Your task to perform on an android device: Clear the cart on bestbuy.com. Search for duracell triple a on bestbuy.com, select the first entry, add it to the cart, then select checkout. Image 0: 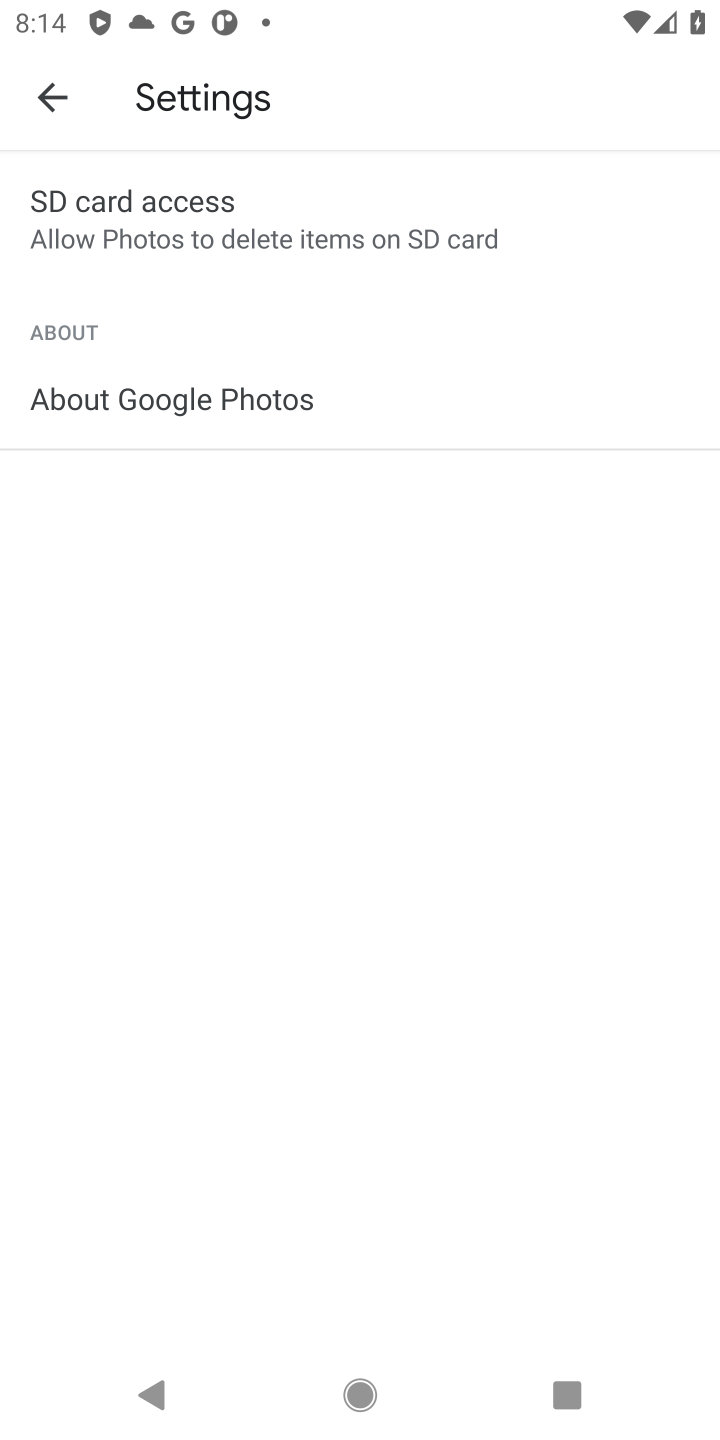
Step 0: press home button
Your task to perform on an android device: Clear the cart on bestbuy.com. Search for duracell triple a on bestbuy.com, select the first entry, add it to the cart, then select checkout. Image 1: 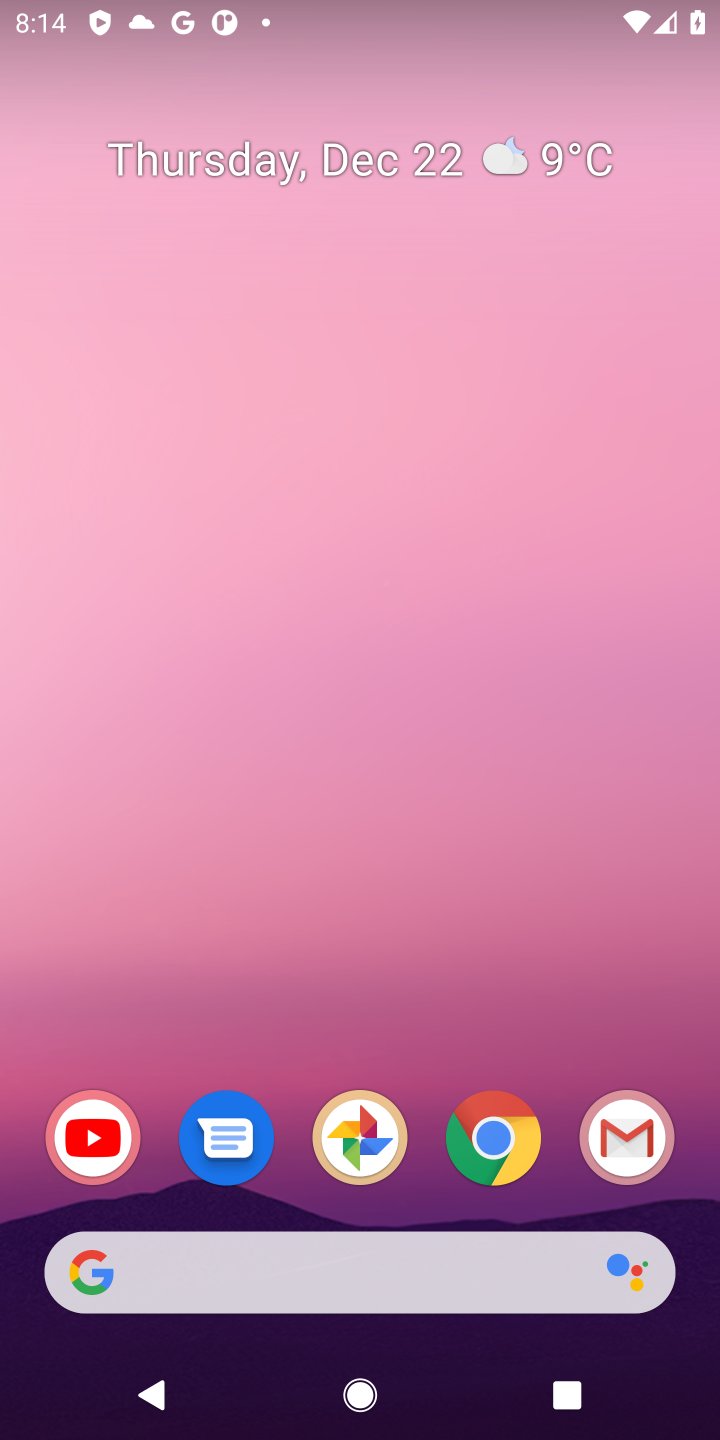
Step 1: click (505, 1143)
Your task to perform on an android device: Clear the cart on bestbuy.com. Search for duracell triple a on bestbuy.com, select the first entry, add it to the cart, then select checkout. Image 2: 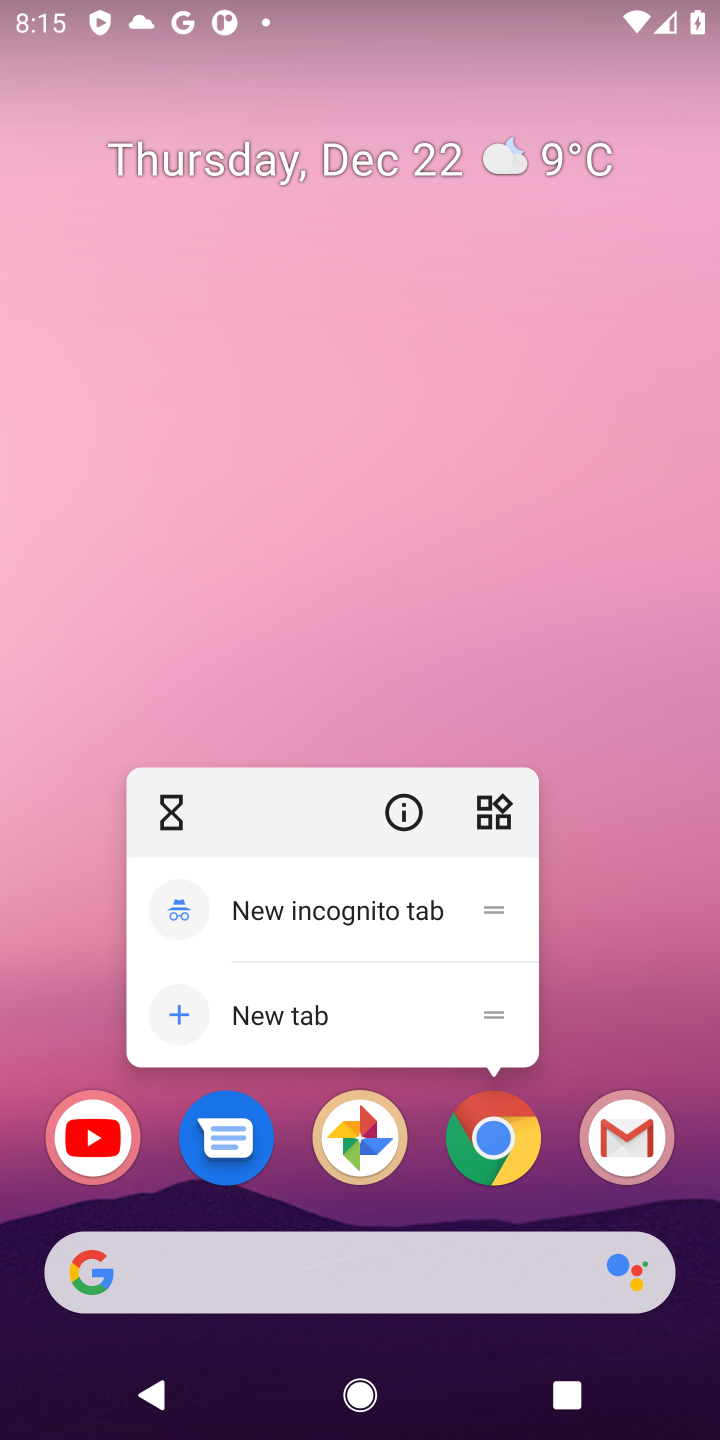
Step 2: click (505, 1143)
Your task to perform on an android device: Clear the cart on bestbuy.com. Search for duracell triple a on bestbuy.com, select the first entry, add it to the cart, then select checkout. Image 3: 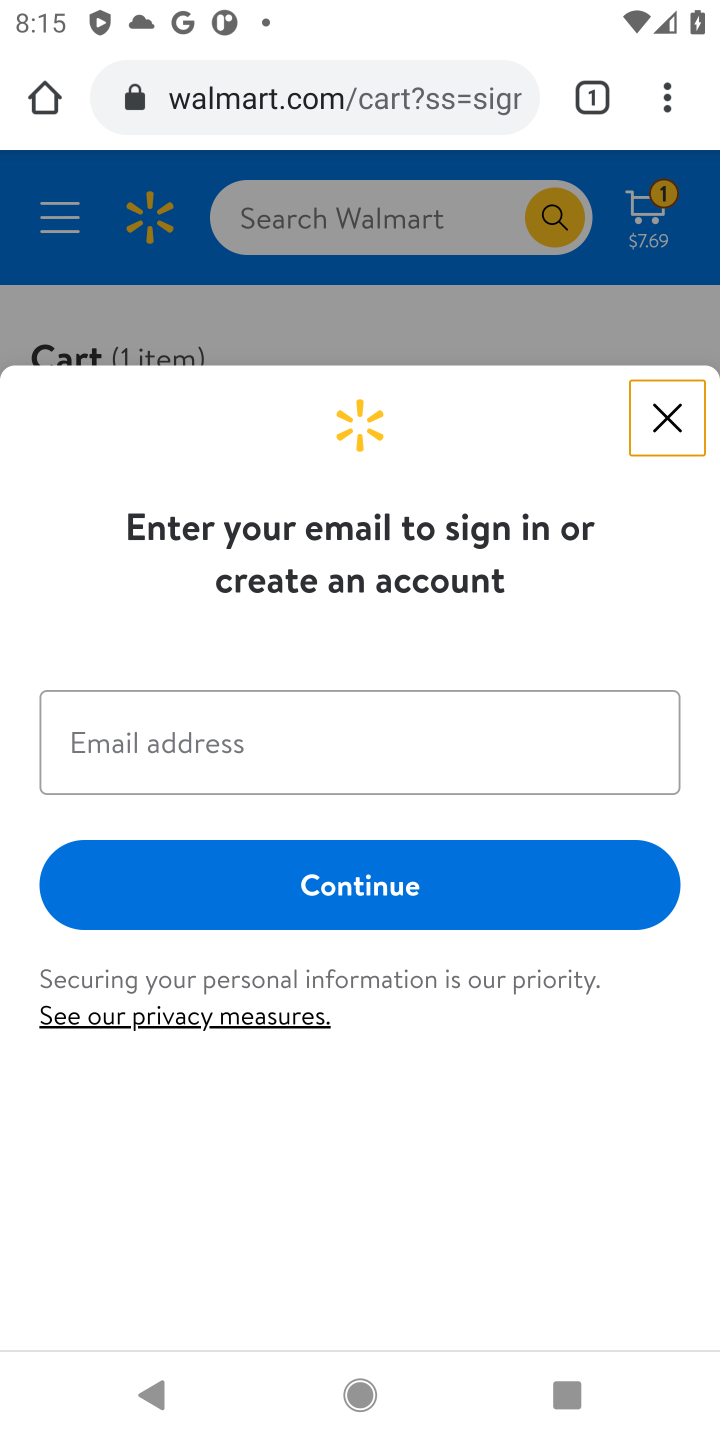
Step 3: click (670, 418)
Your task to perform on an android device: Clear the cart on bestbuy.com. Search for duracell triple a on bestbuy.com, select the first entry, add it to the cart, then select checkout. Image 4: 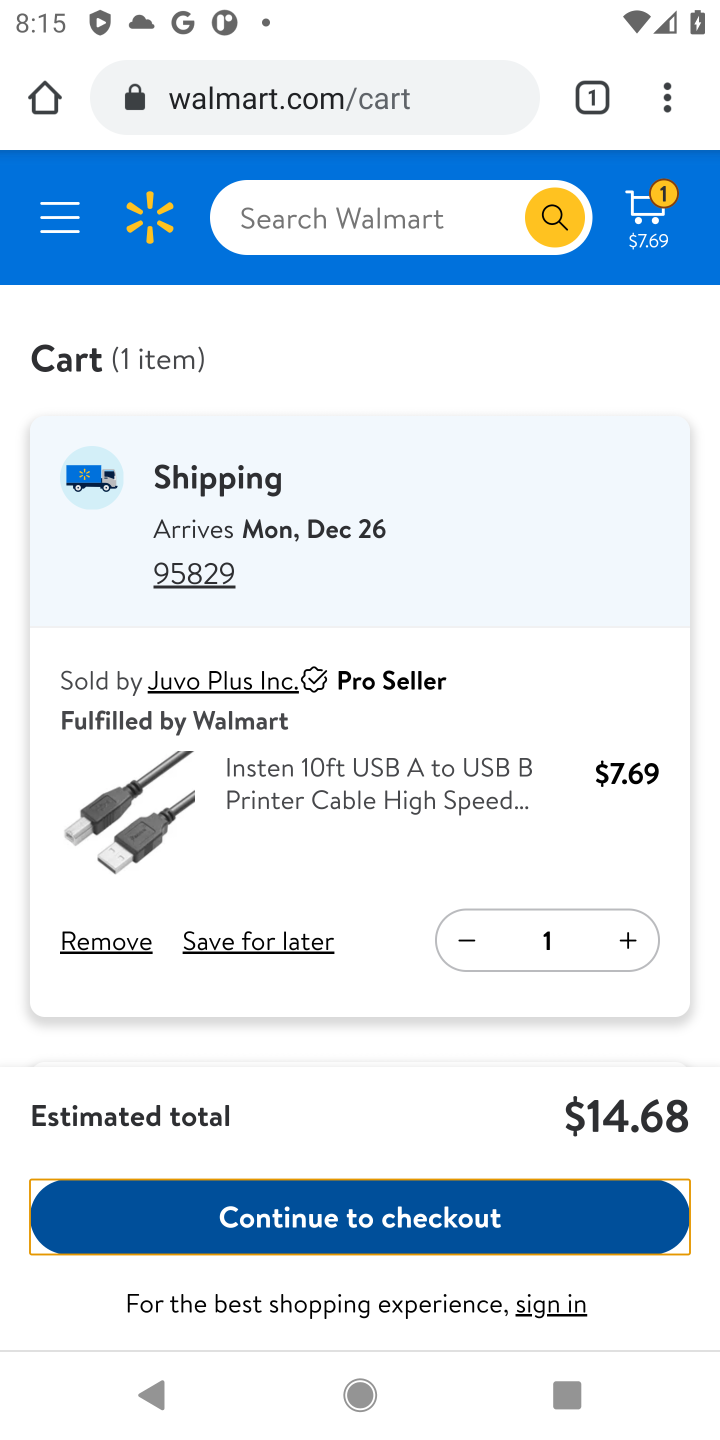
Step 4: click (459, 101)
Your task to perform on an android device: Clear the cart on bestbuy.com. Search for duracell triple a on bestbuy.com, select the first entry, add it to the cart, then select checkout. Image 5: 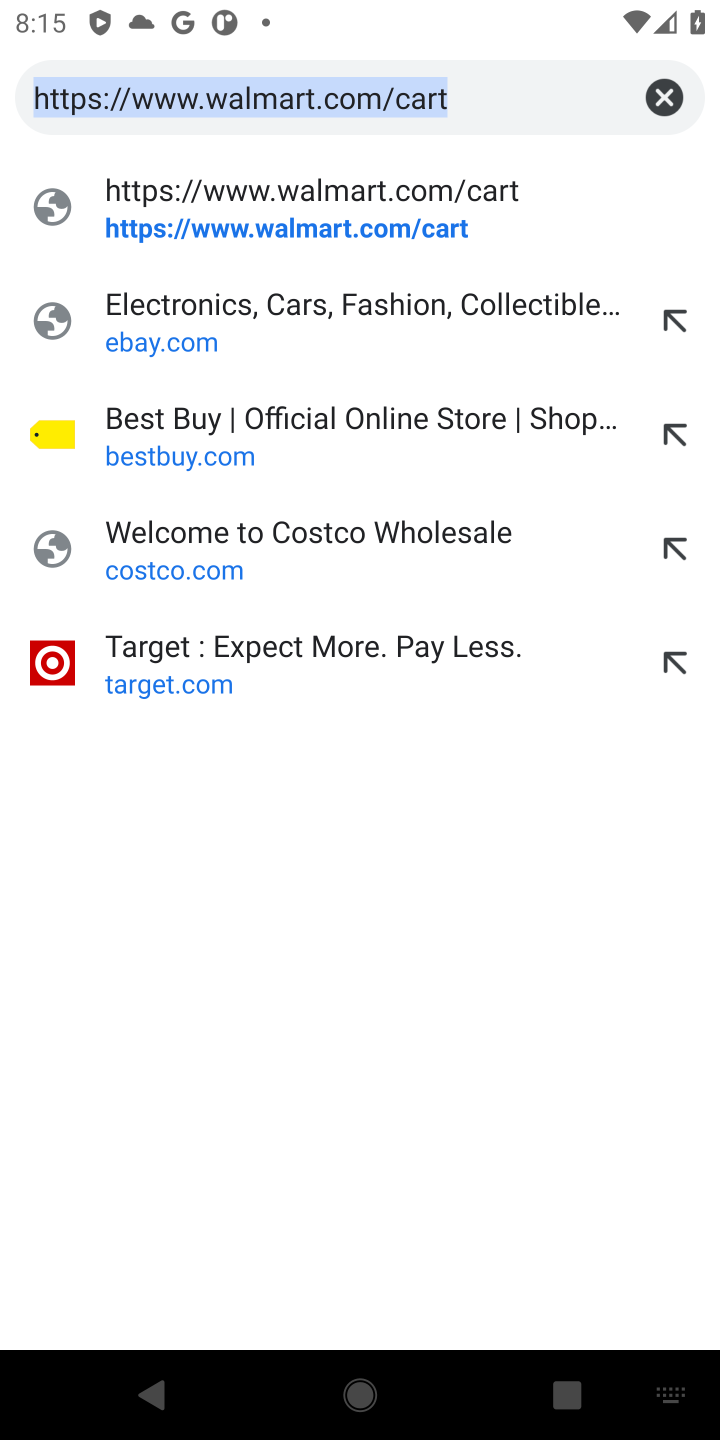
Step 5: click (662, 99)
Your task to perform on an android device: Clear the cart on bestbuy.com. Search for duracell triple a on bestbuy.com, select the first entry, add it to the cart, then select checkout. Image 6: 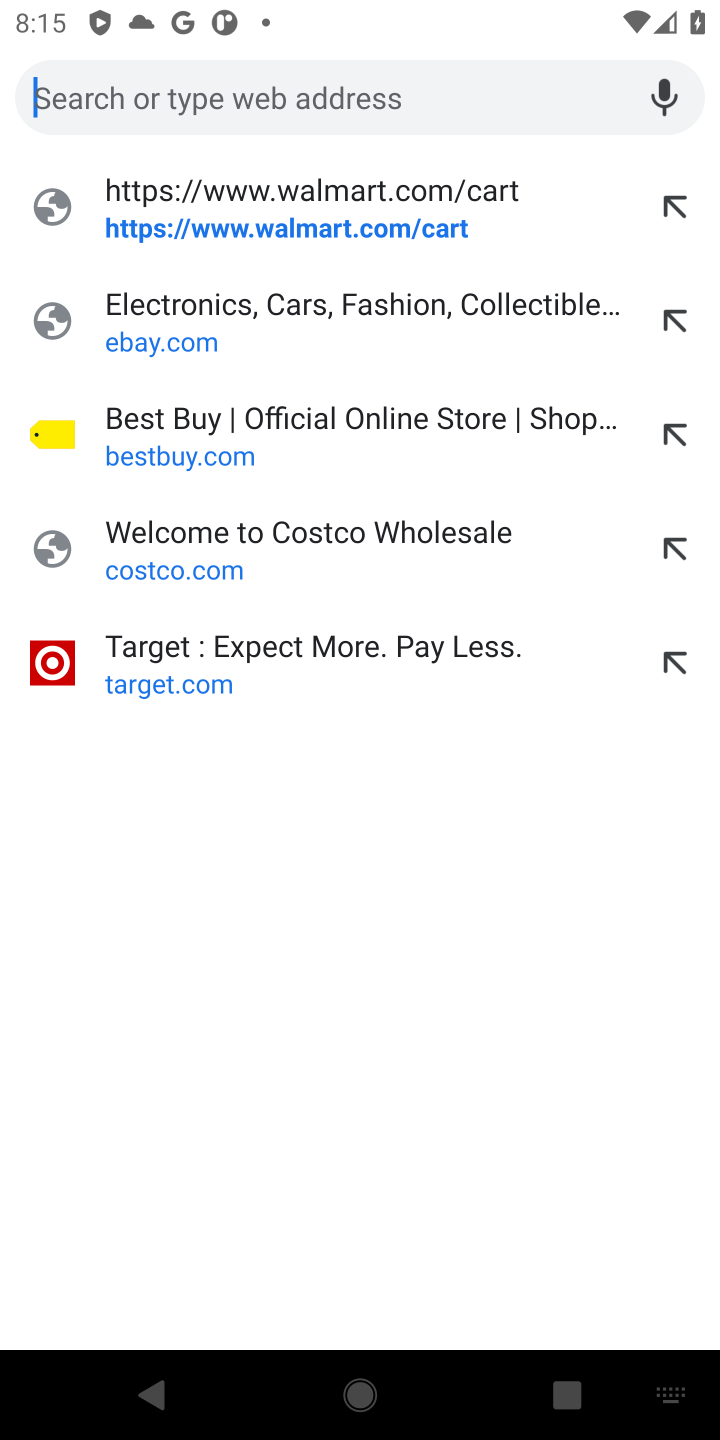
Step 6: click (315, 417)
Your task to perform on an android device: Clear the cart on bestbuy.com. Search for duracell triple a on bestbuy.com, select the first entry, add it to the cart, then select checkout. Image 7: 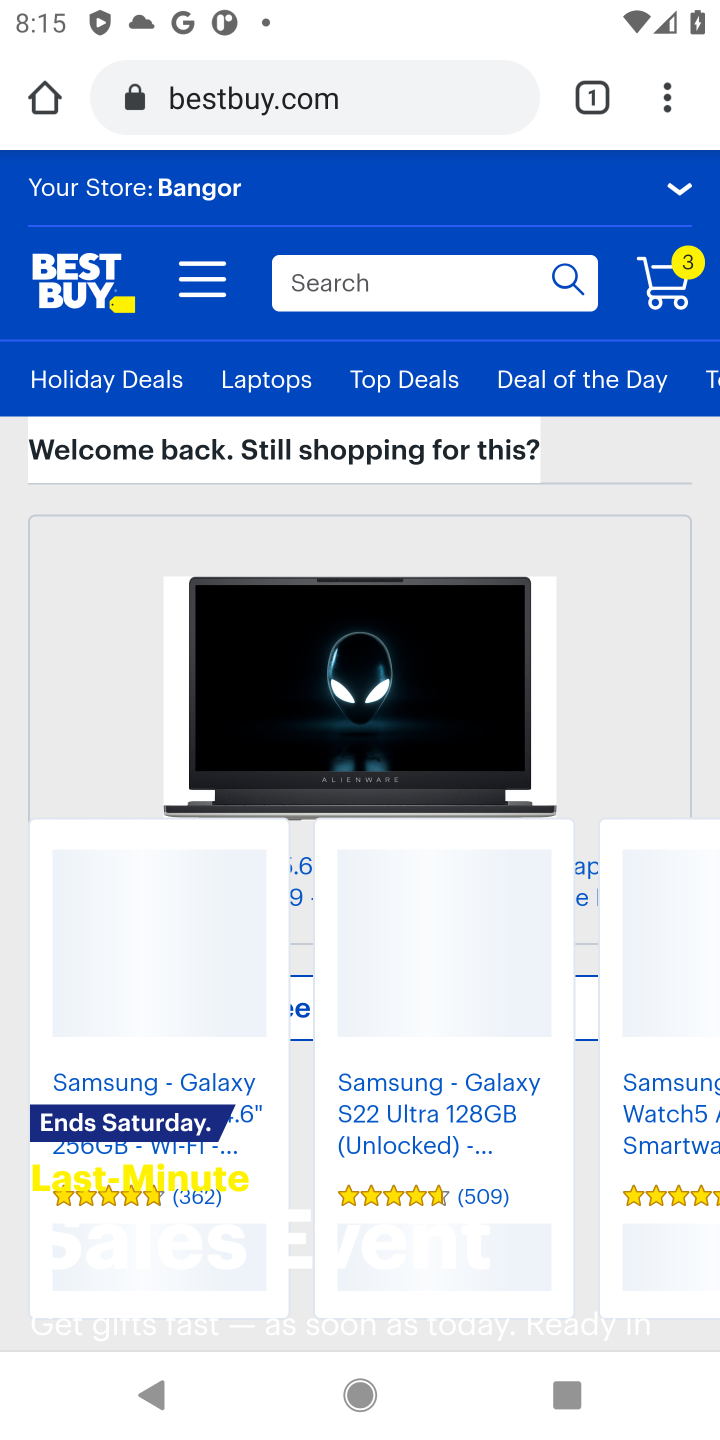
Step 7: click (670, 290)
Your task to perform on an android device: Clear the cart on bestbuy.com. Search for duracell triple a on bestbuy.com, select the first entry, add it to the cart, then select checkout. Image 8: 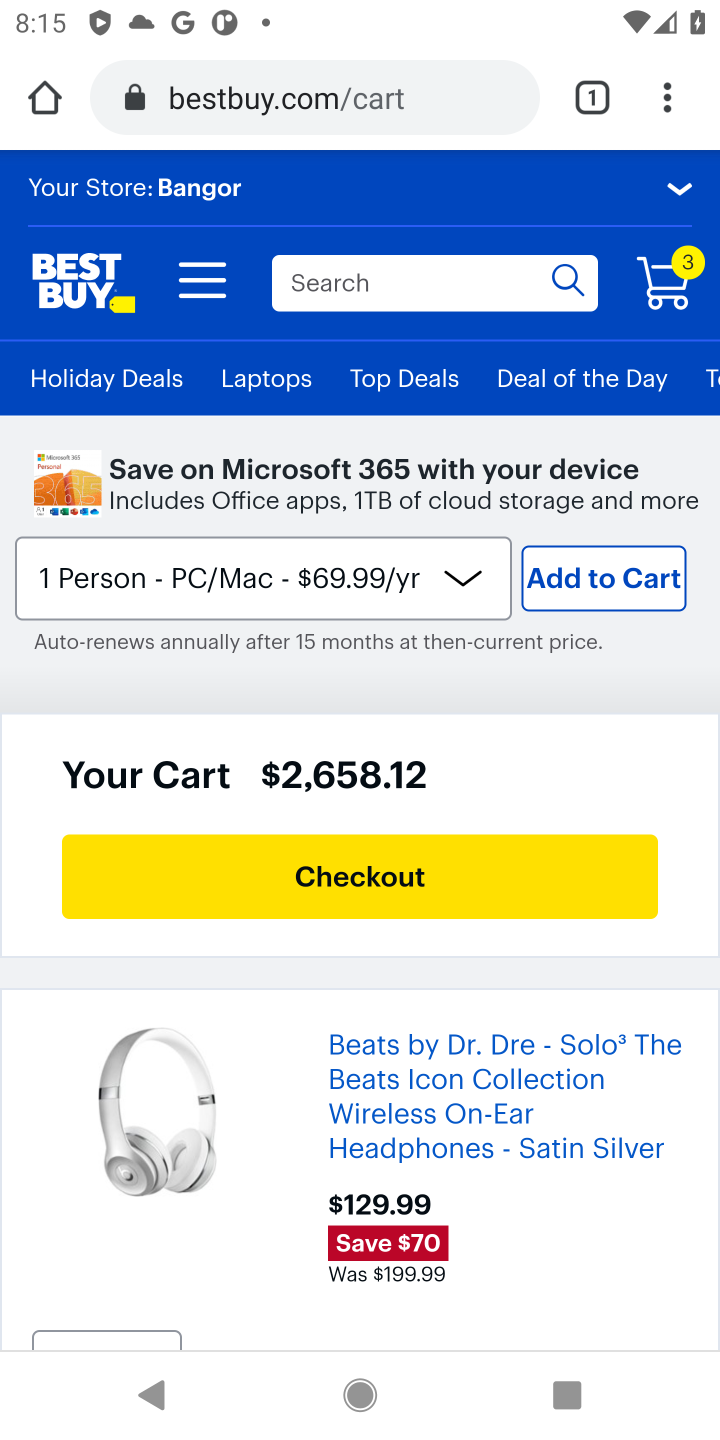
Step 8: drag from (541, 1136) to (450, 505)
Your task to perform on an android device: Clear the cart on bestbuy.com. Search for duracell triple a on bestbuy.com, select the first entry, add it to the cart, then select checkout. Image 9: 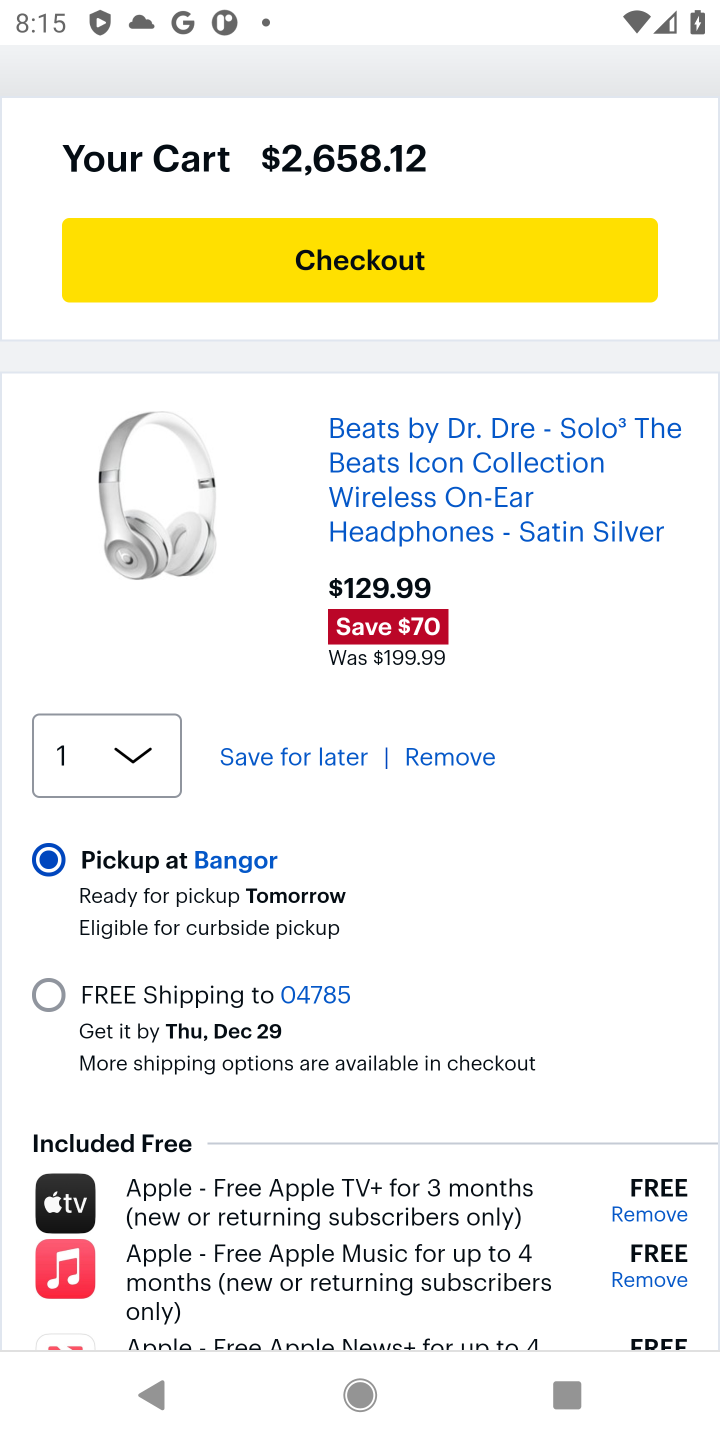
Step 9: click (449, 757)
Your task to perform on an android device: Clear the cart on bestbuy.com. Search for duracell triple a on bestbuy.com, select the first entry, add it to the cart, then select checkout. Image 10: 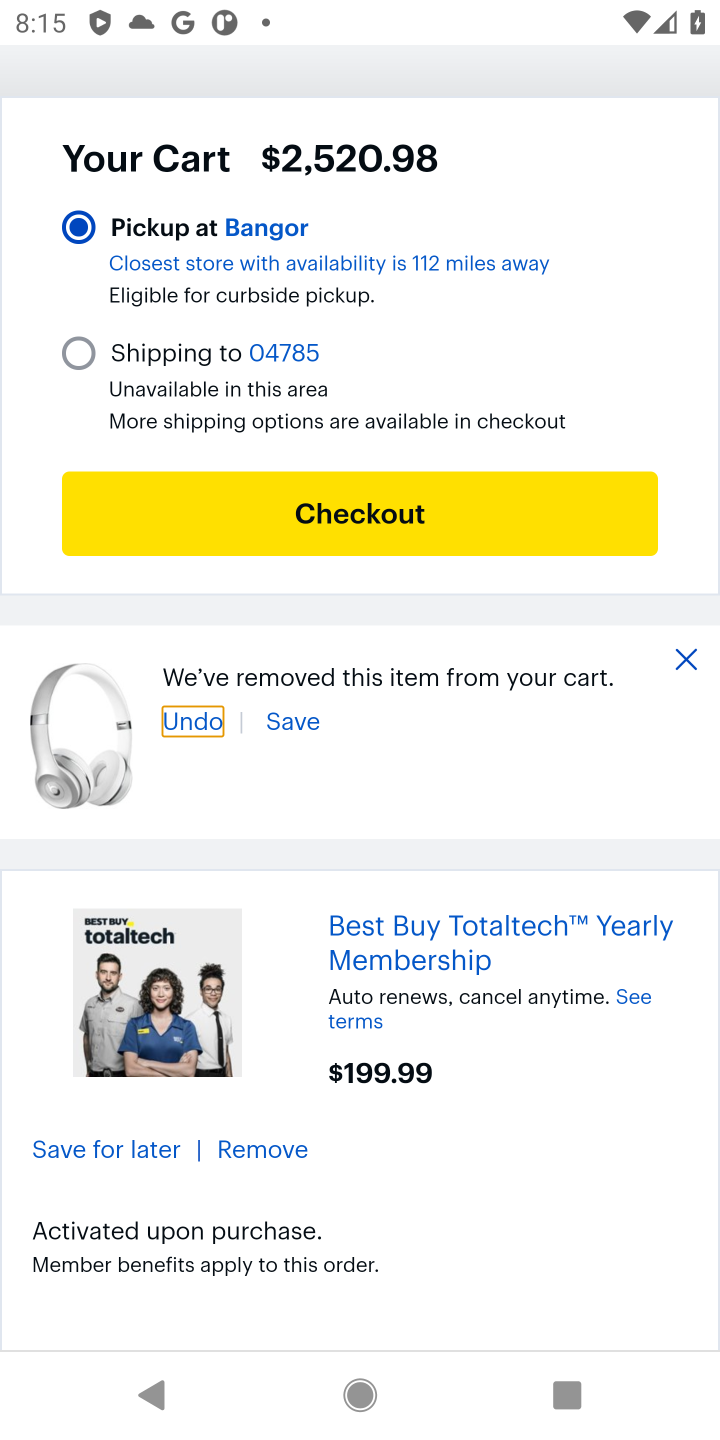
Step 10: click (692, 658)
Your task to perform on an android device: Clear the cart on bestbuy.com. Search for duracell triple a on bestbuy.com, select the first entry, add it to the cart, then select checkout. Image 11: 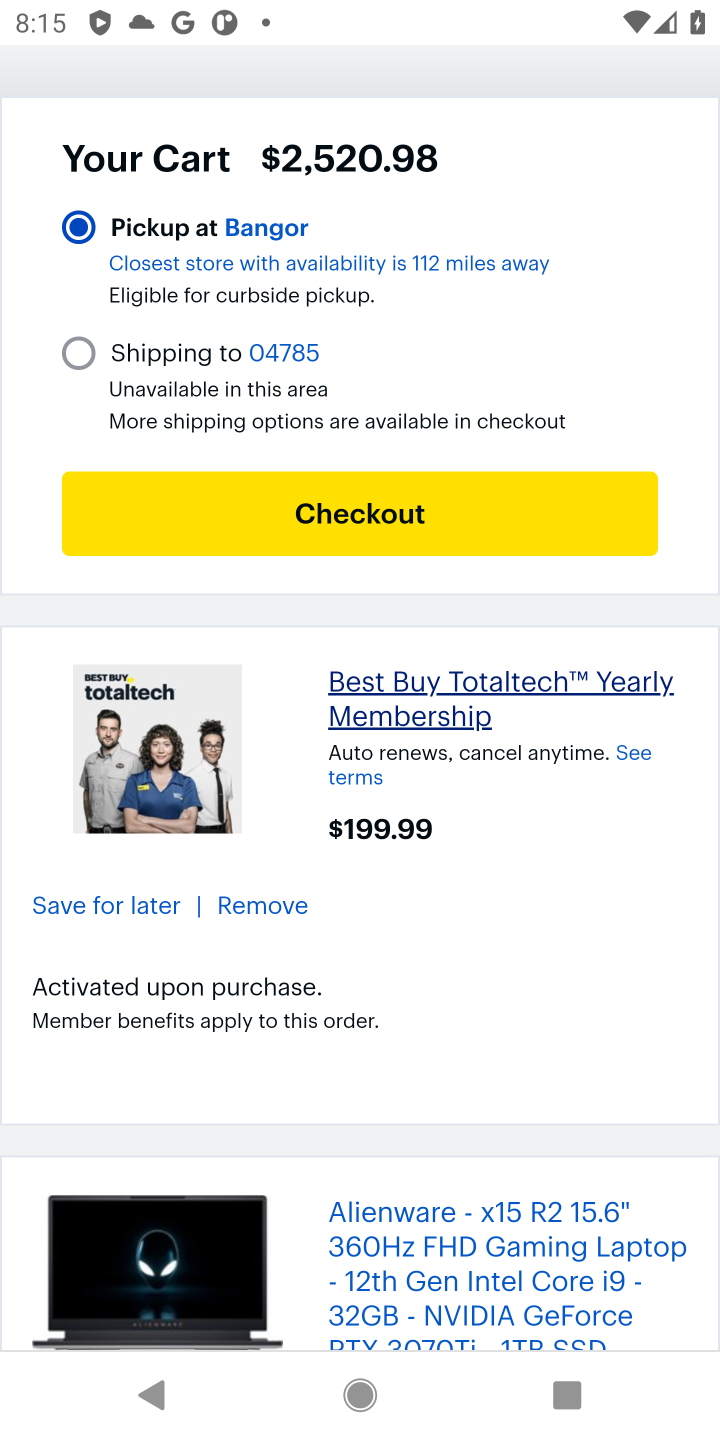
Step 11: click (280, 908)
Your task to perform on an android device: Clear the cart on bestbuy.com. Search for duracell triple a on bestbuy.com, select the first entry, add it to the cart, then select checkout. Image 12: 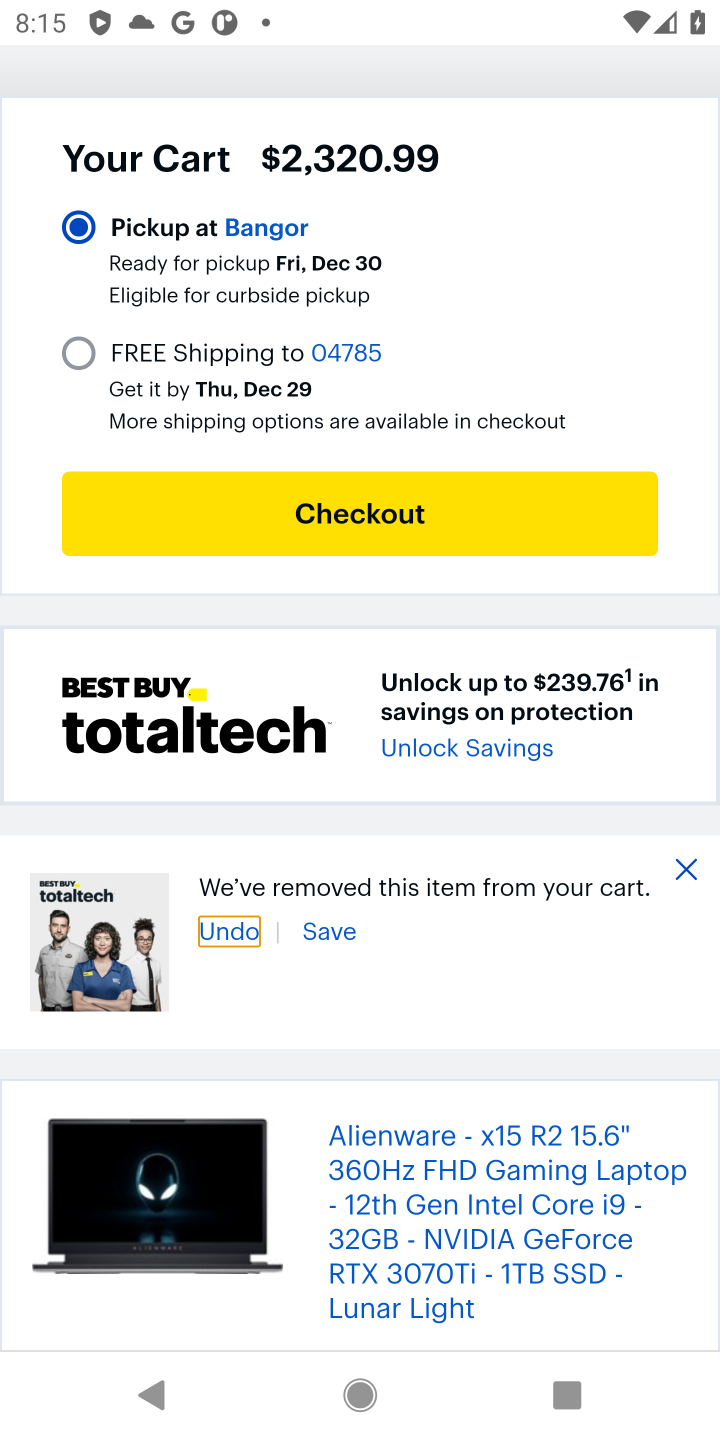
Step 12: click (679, 867)
Your task to perform on an android device: Clear the cart on bestbuy.com. Search for duracell triple a on bestbuy.com, select the first entry, add it to the cart, then select checkout. Image 13: 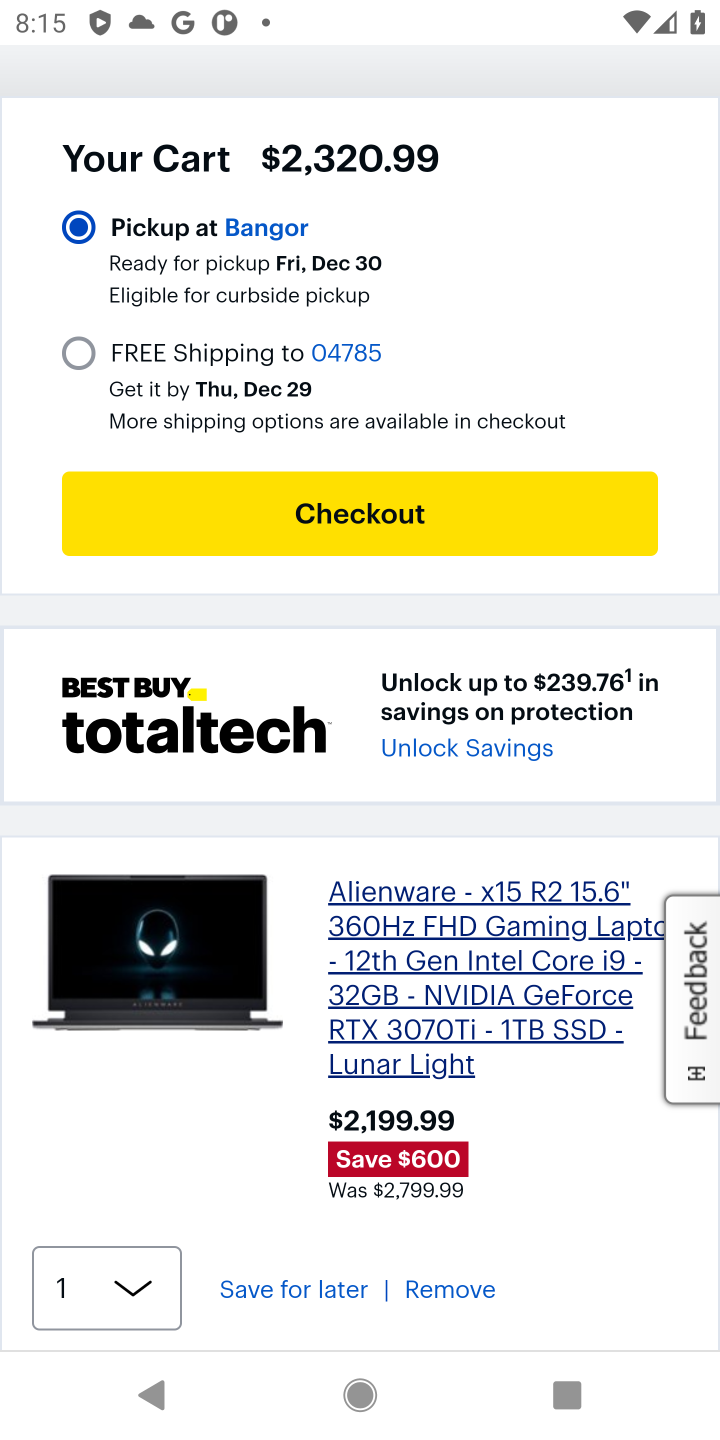
Step 13: drag from (572, 1187) to (488, 516)
Your task to perform on an android device: Clear the cart on bestbuy.com. Search for duracell triple a on bestbuy.com, select the first entry, add it to the cart, then select checkout. Image 14: 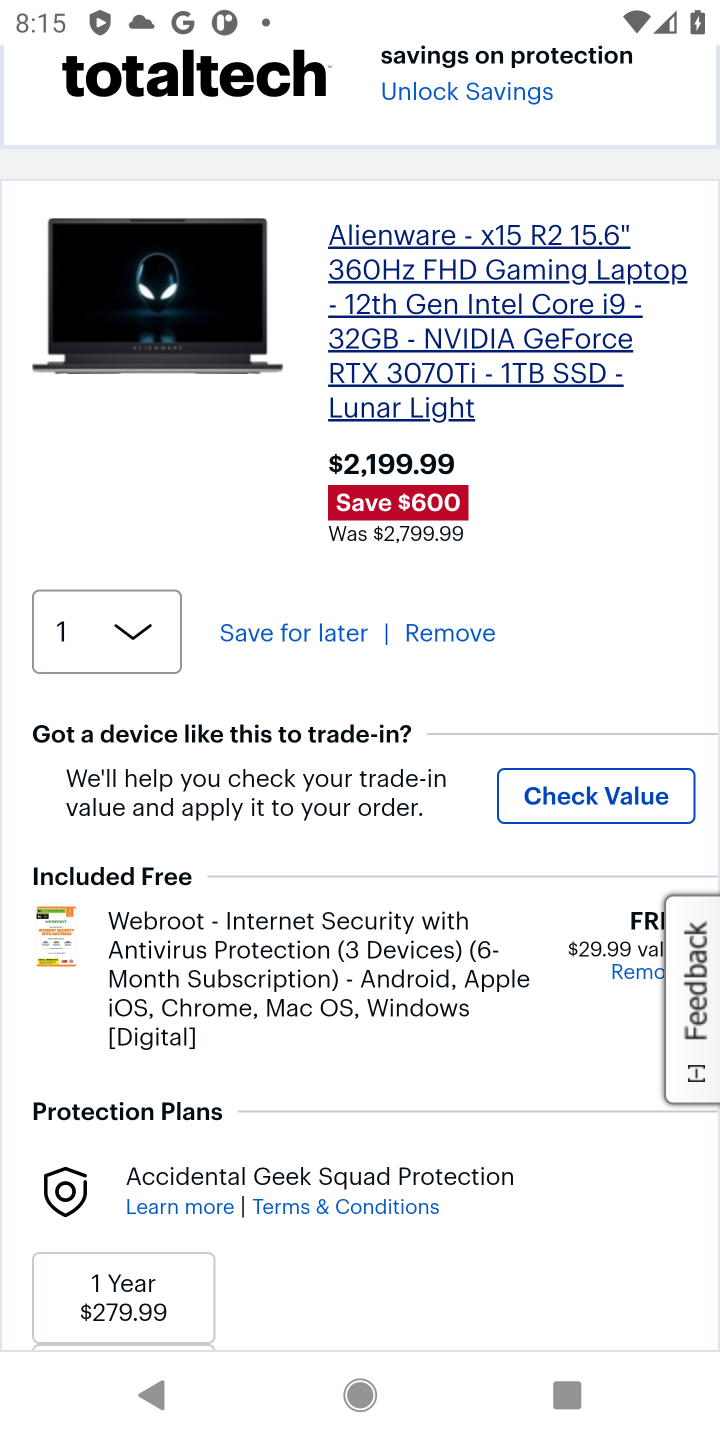
Step 14: click (454, 634)
Your task to perform on an android device: Clear the cart on bestbuy.com. Search for duracell triple a on bestbuy.com, select the first entry, add it to the cart, then select checkout. Image 15: 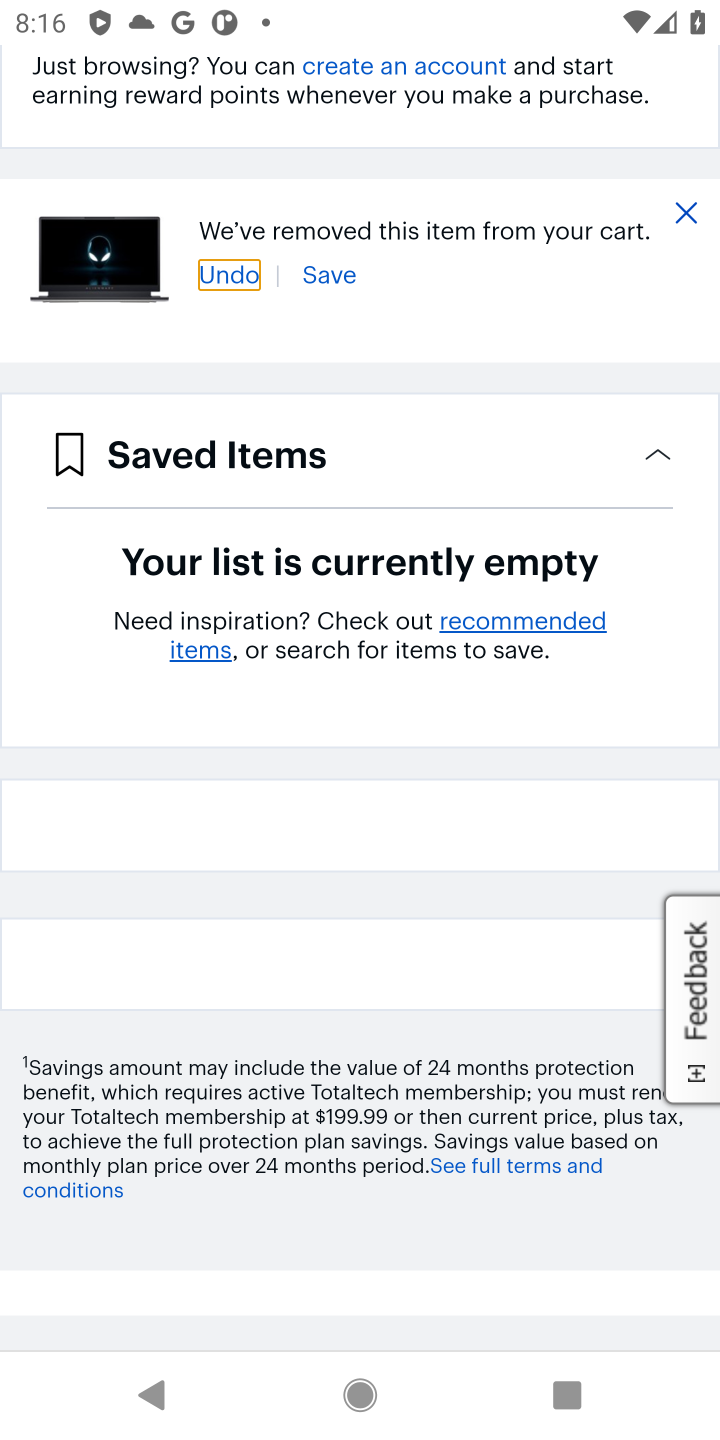
Step 15: click (695, 223)
Your task to perform on an android device: Clear the cart on bestbuy.com. Search for duracell triple a on bestbuy.com, select the first entry, add it to the cart, then select checkout. Image 16: 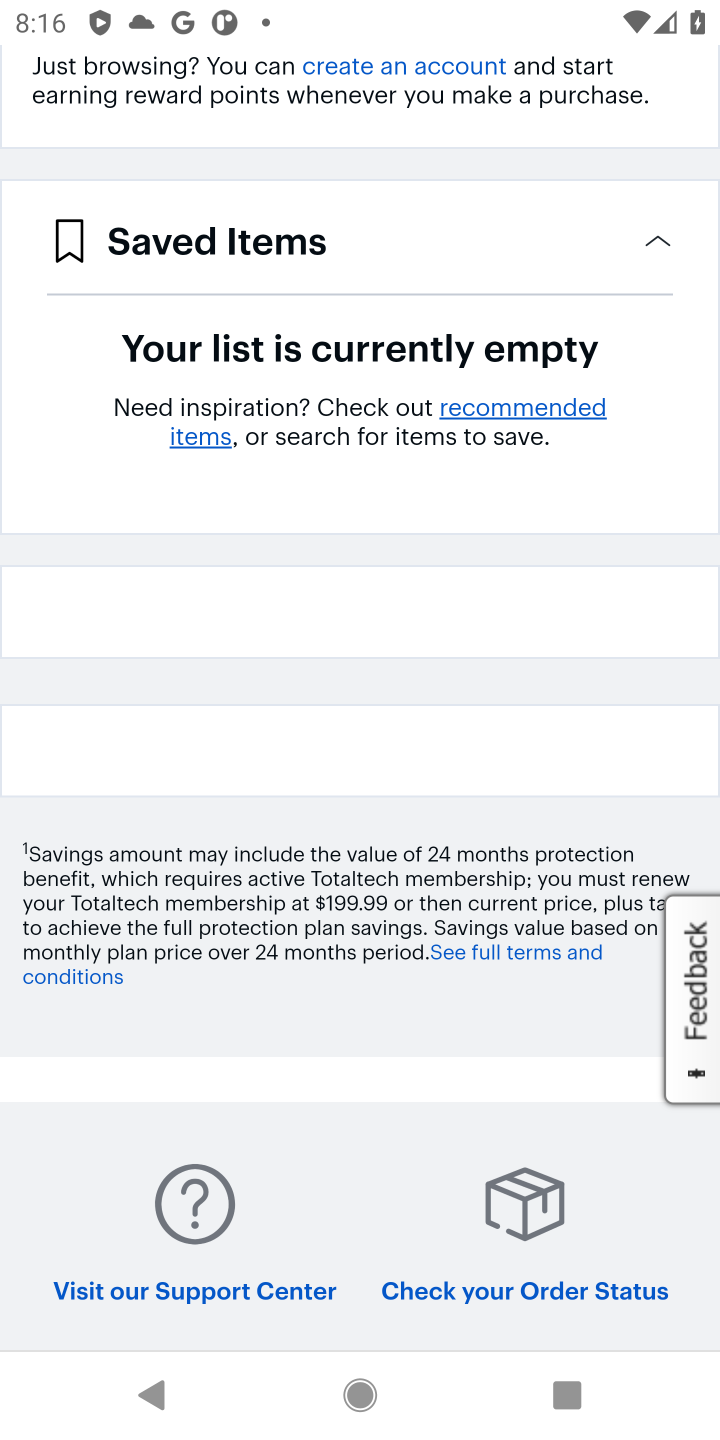
Step 16: drag from (620, 523) to (665, 1218)
Your task to perform on an android device: Clear the cart on bestbuy.com. Search for duracell triple a on bestbuy.com, select the first entry, add it to the cart, then select checkout. Image 17: 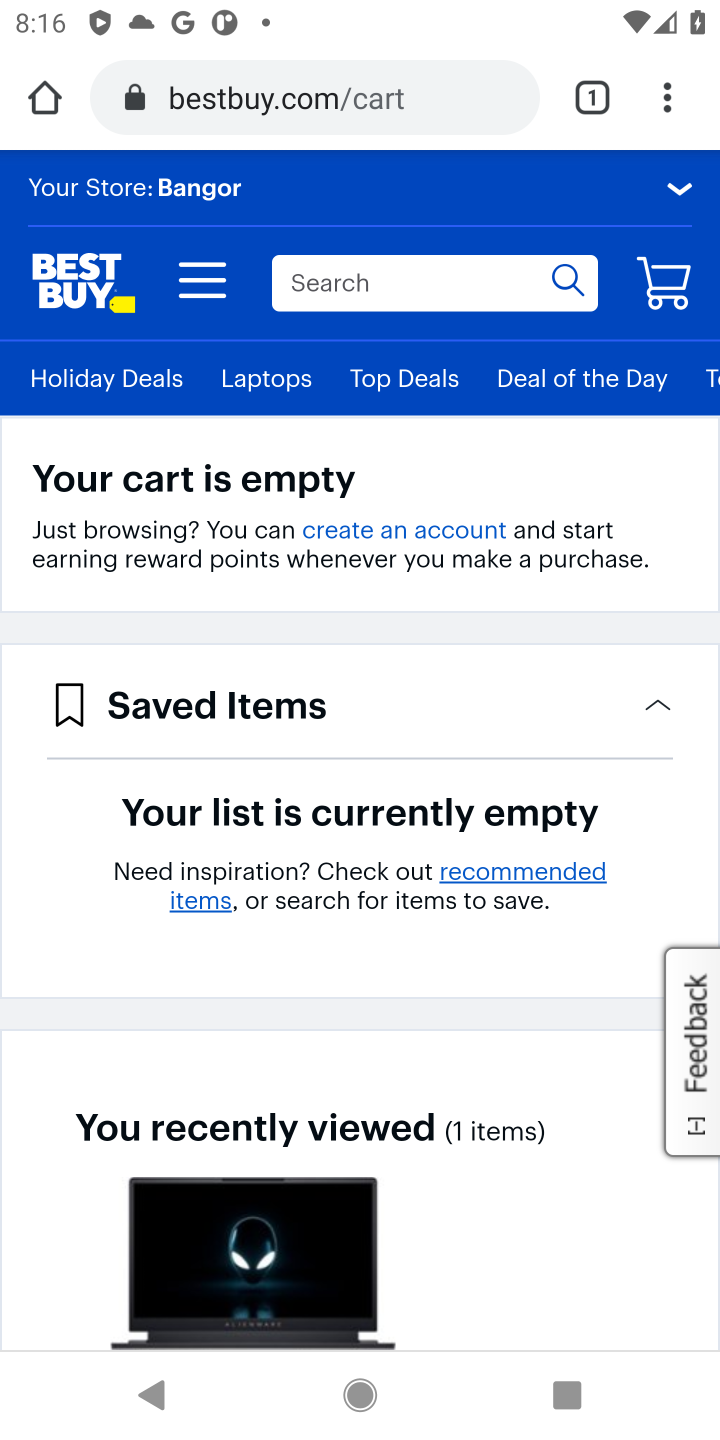
Step 17: click (661, 287)
Your task to perform on an android device: Clear the cart on bestbuy.com. Search for duracell triple a on bestbuy.com, select the first entry, add it to the cart, then select checkout. Image 18: 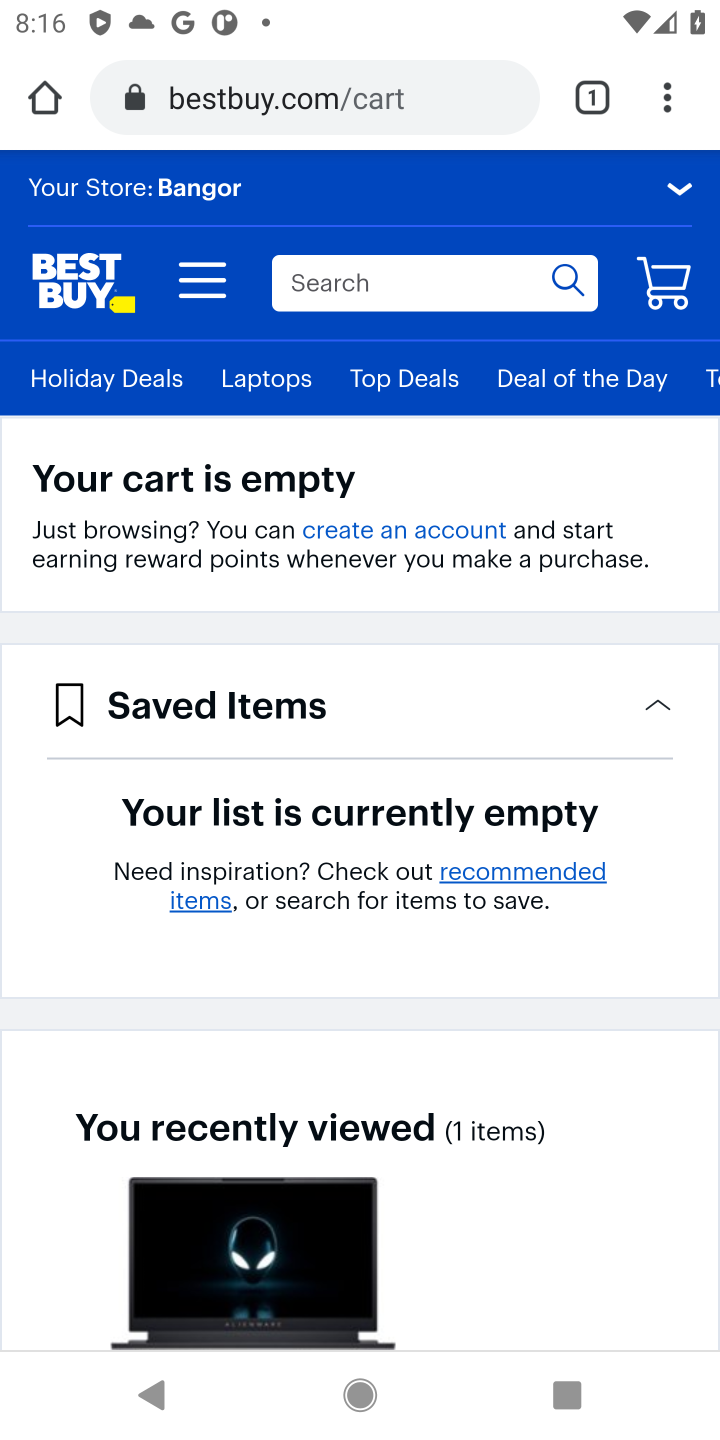
Step 18: click (450, 260)
Your task to perform on an android device: Clear the cart on bestbuy.com. Search for duracell triple a on bestbuy.com, select the first entry, add it to the cart, then select checkout. Image 19: 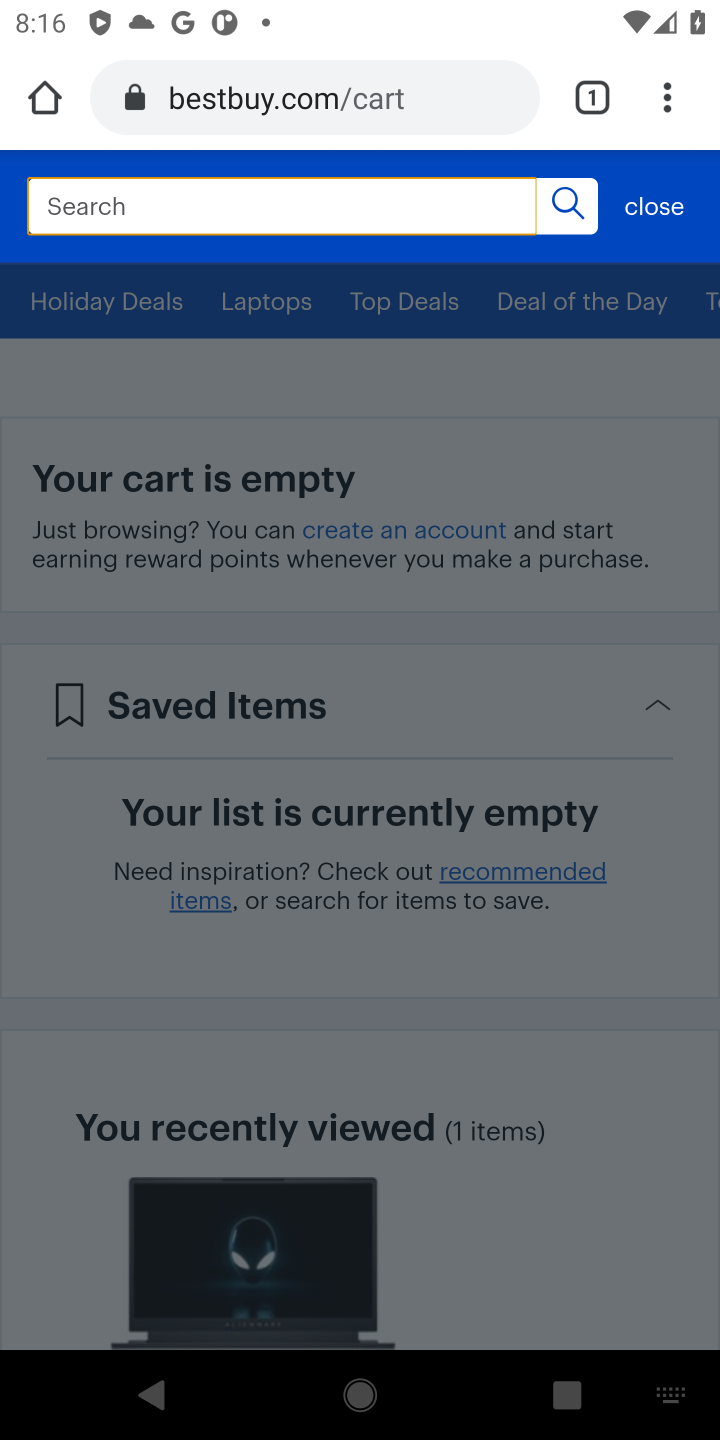
Step 19: press enter
Your task to perform on an android device: Clear the cart on bestbuy.com. Search for duracell triple a on bestbuy.com, select the first entry, add it to the cart, then select checkout. Image 20: 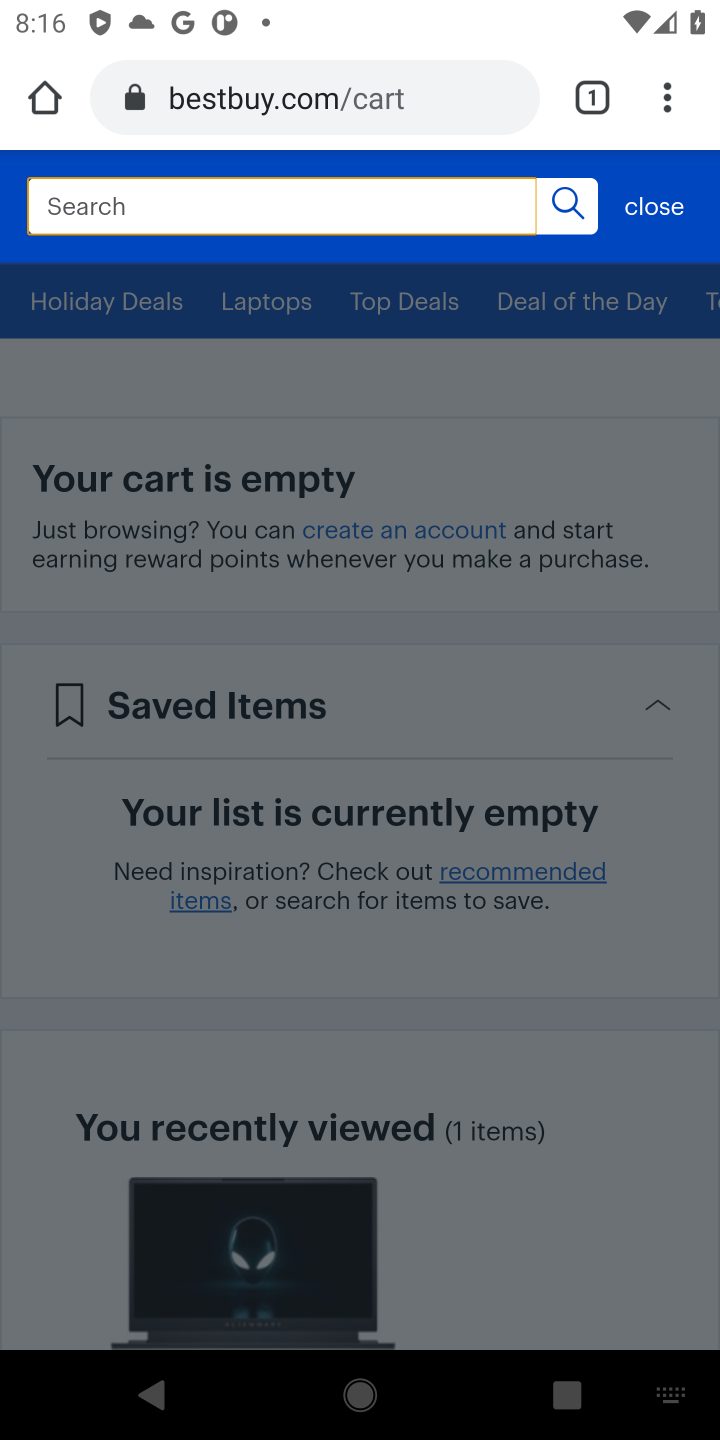
Step 20: type "duracell triple a"
Your task to perform on an android device: Clear the cart on bestbuy.com. Search for duracell triple a on bestbuy.com, select the first entry, add it to the cart, then select checkout. Image 21: 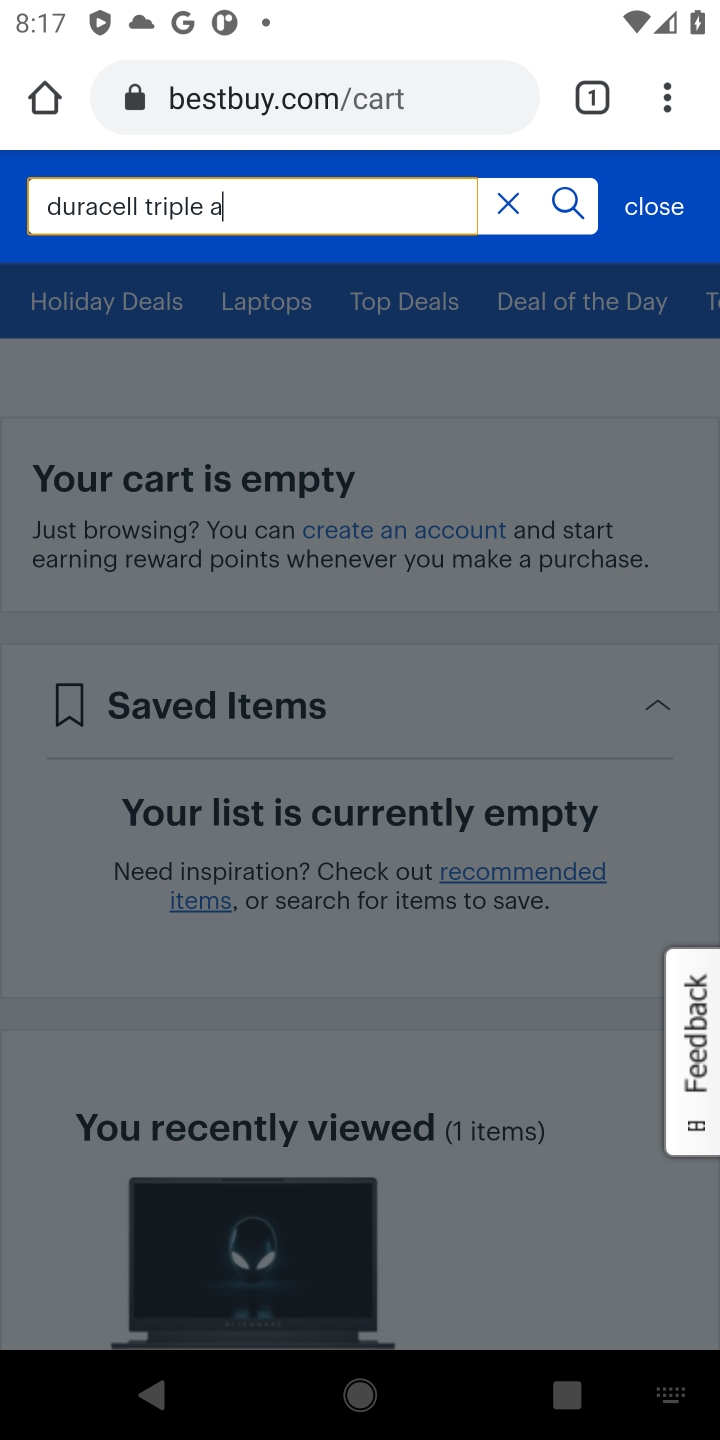
Step 21: click (576, 213)
Your task to perform on an android device: Clear the cart on bestbuy.com. Search for duracell triple a on bestbuy.com, select the first entry, add it to the cart, then select checkout. Image 22: 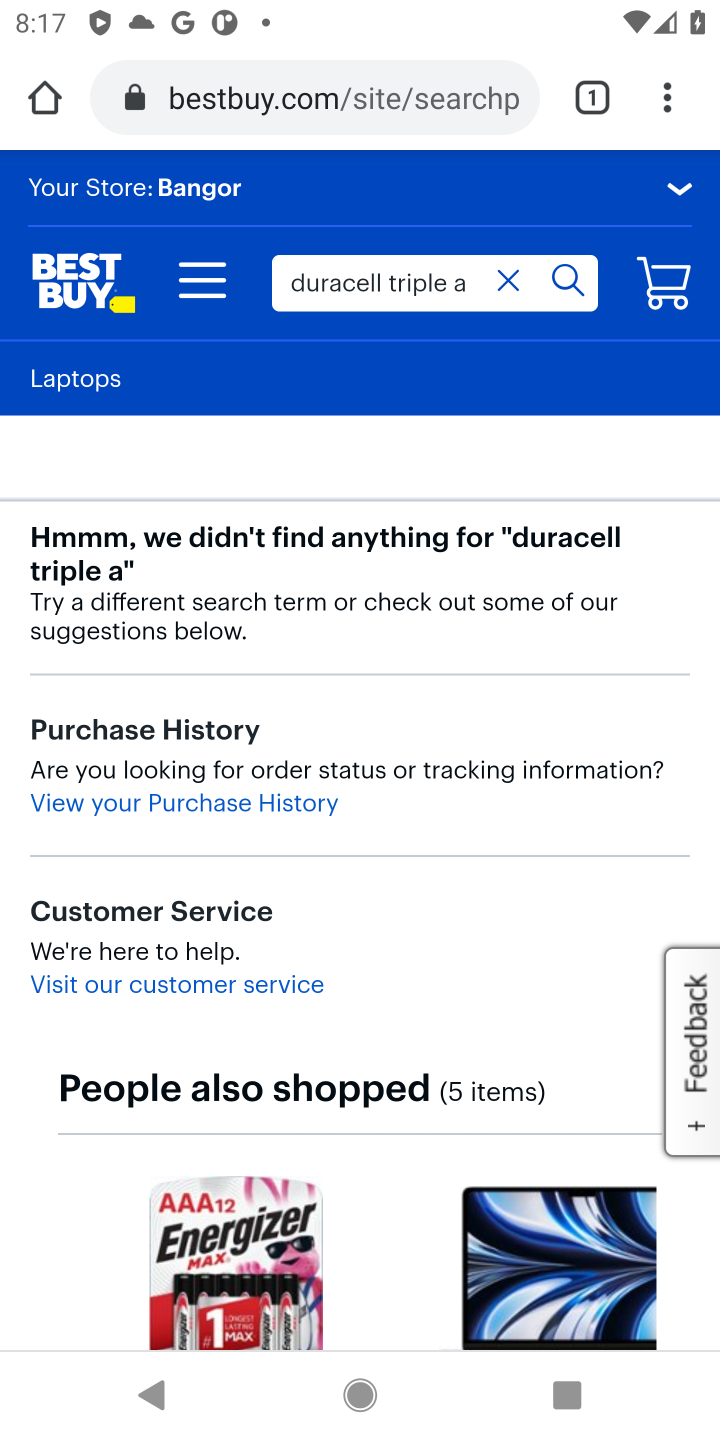
Step 22: drag from (468, 863) to (416, 423)
Your task to perform on an android device: Clear the cart on bestbuy.com. Search for duracell triple a on bestbuy.com, select the first entry, add it to the cart, then select checkout. Image 23: 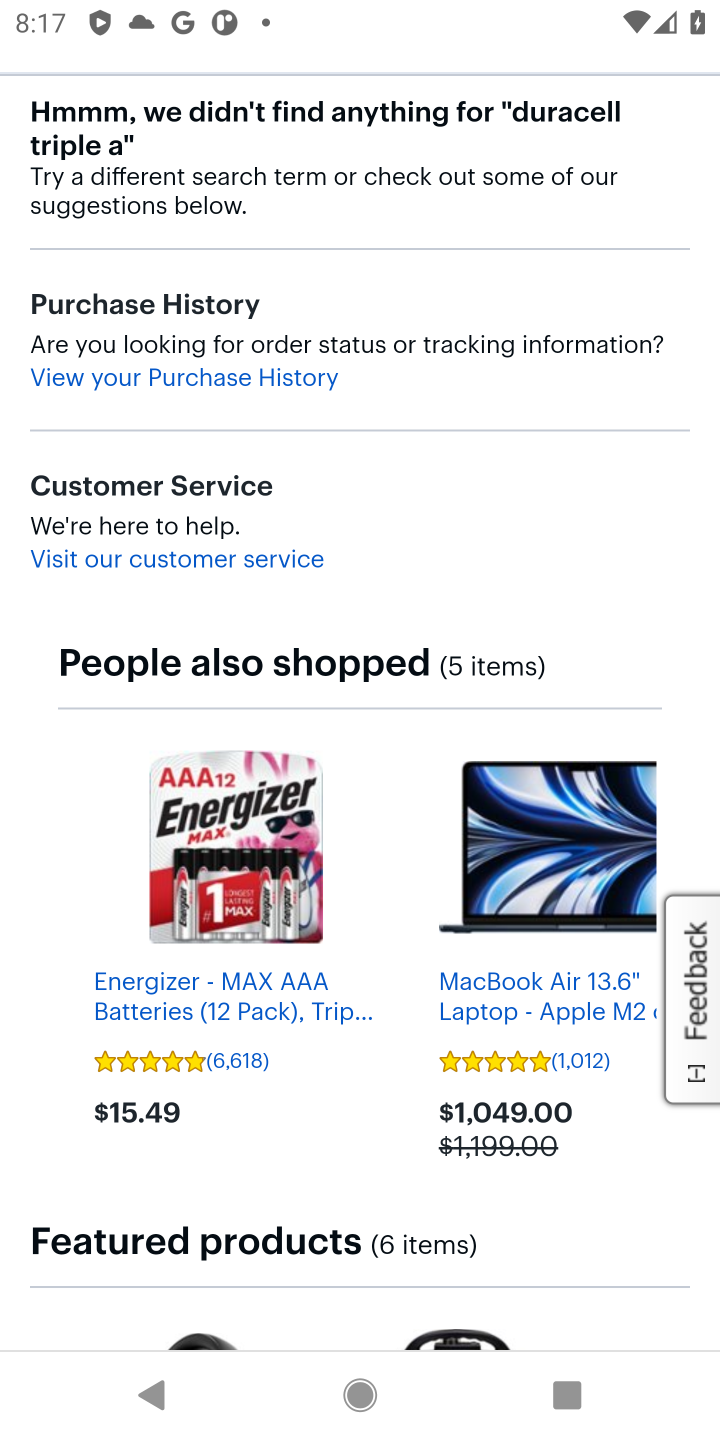
Step 23: drag from (458, 1106) to (506, 327)
Your task to perform on an android device: Clear the cart on bestbuy.com. Search for duracell triple a on bestbuy.com, select the first entry, add it to the cart, then select checkout. Image 24: 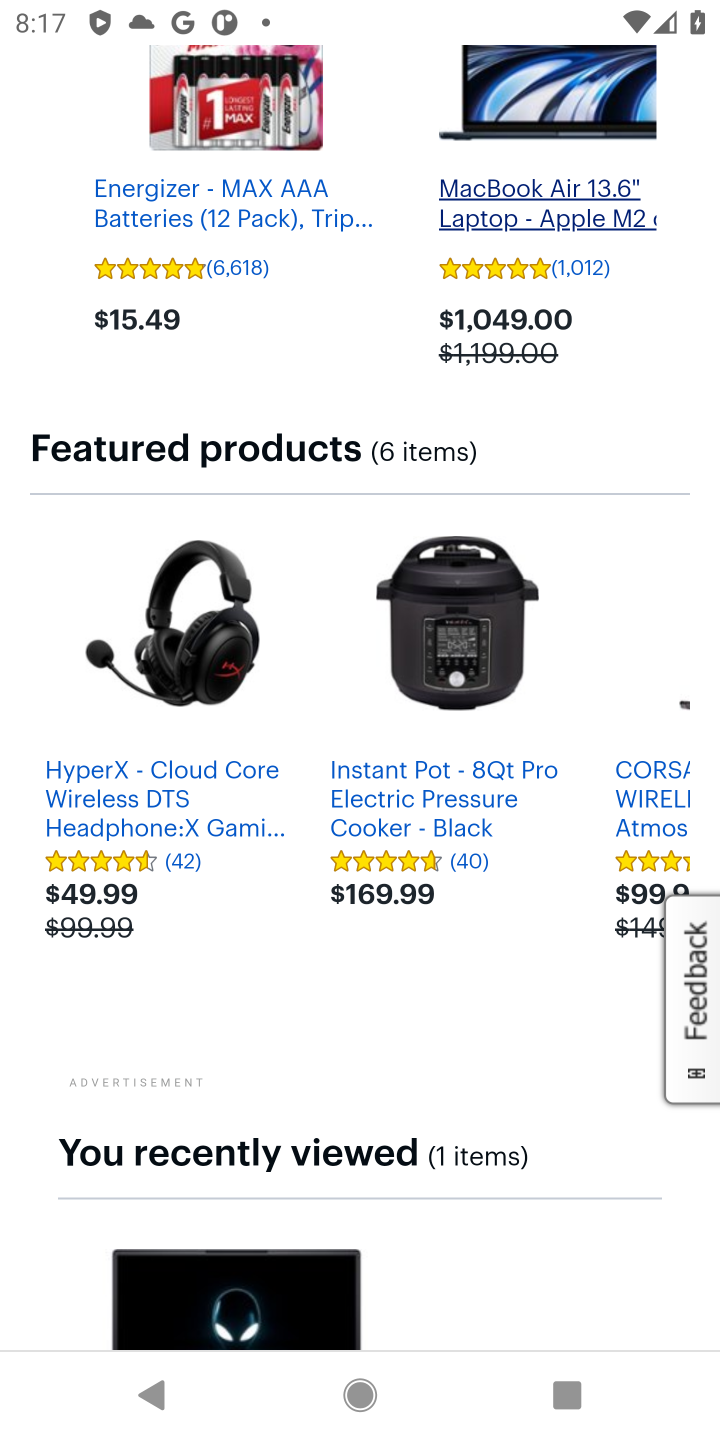
Step 24: drag from (553, 1105) to (488, 456)
Your task to perform on an android device: Clear the cart on bestbuy.com. Search for duracell triple a on bestbuy.com, select the first entry, add it to the cart, then select checkout. Image 25: 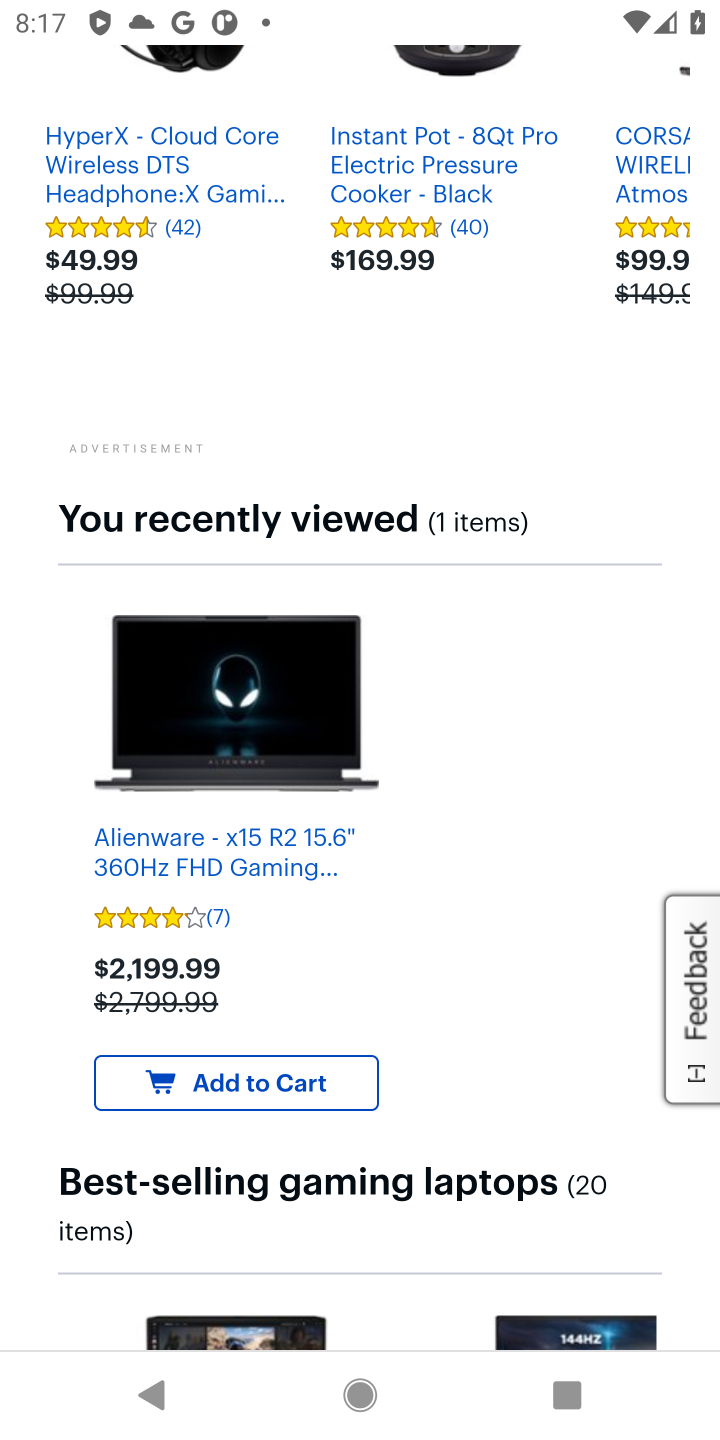
Step 25: drag from (459, 883) to (431, 333)
Your task to perform on an android device: Clear the cart on bestbuy.com. Search for duracell triple a on bestbuy.com, select the first entry, add it to the cart, then select checkout. Image 26: 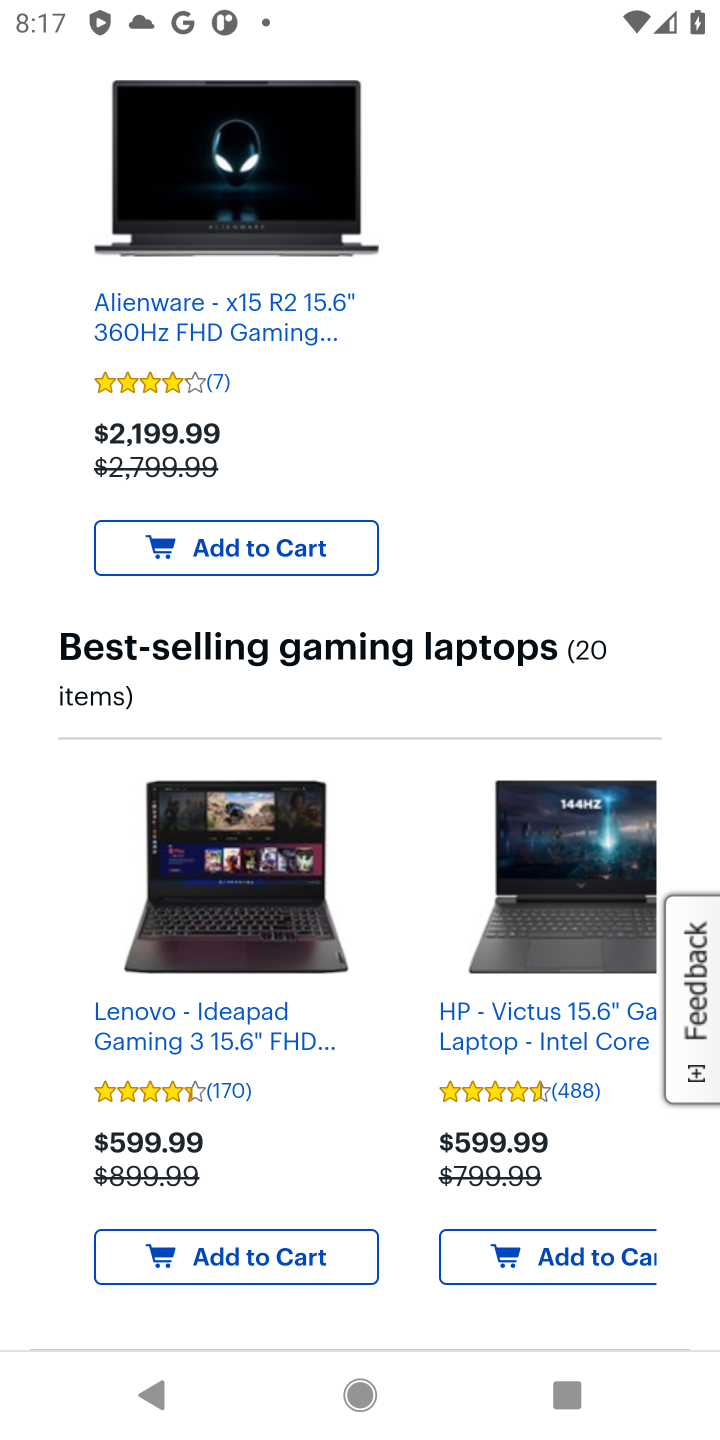
Step 26: drag from (345, 902) to (425, 350)
Your task to perform on an android device: Clear the cart on bestbuy.com. Search for duracell triple a on bestbuy.com, select the first entry, add it to the cart, then select checkout. Image 27: 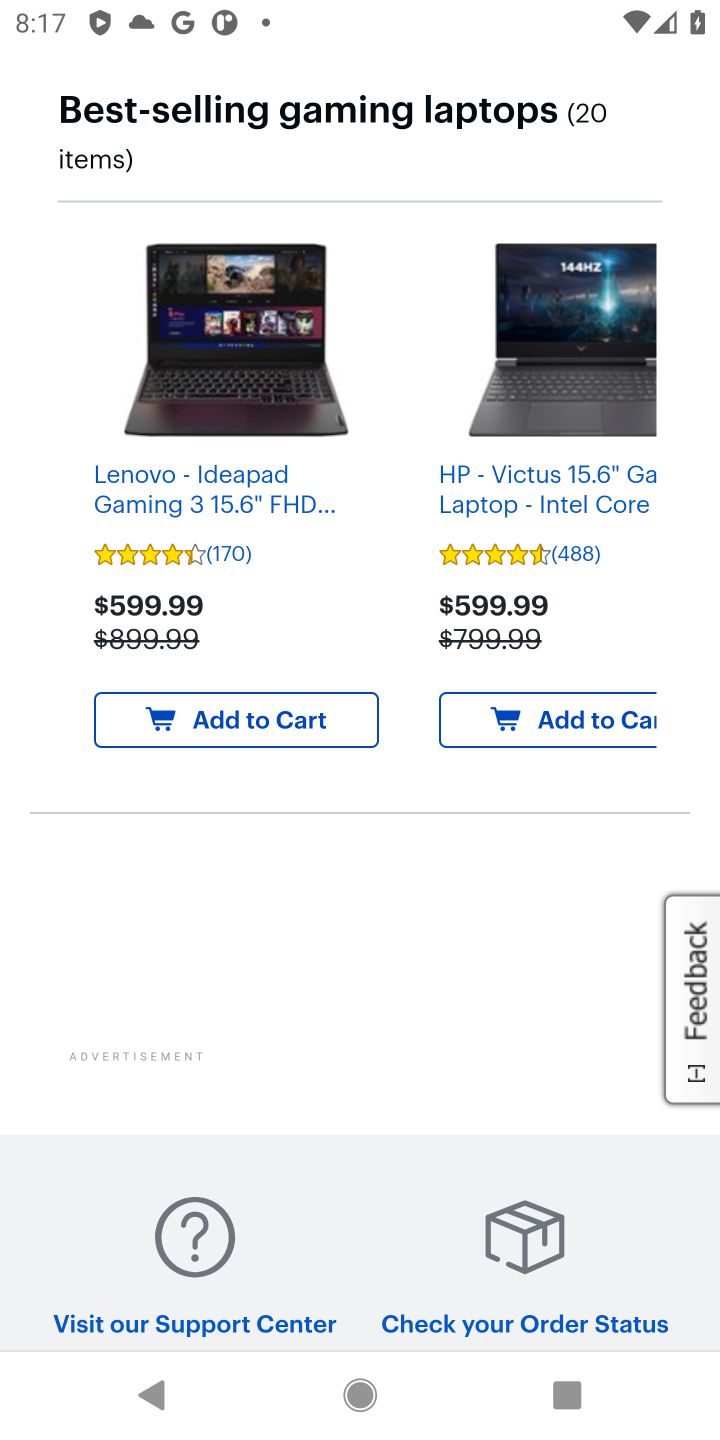
Step 27: drag from (459, 309) to (537, 1303)
Your task to perform on an android device: Clear the cart on bestbuy.com. Search for duracell triple a on bestbuy.com, select the first entry, add it to the cart, then select checkout. Image 28: 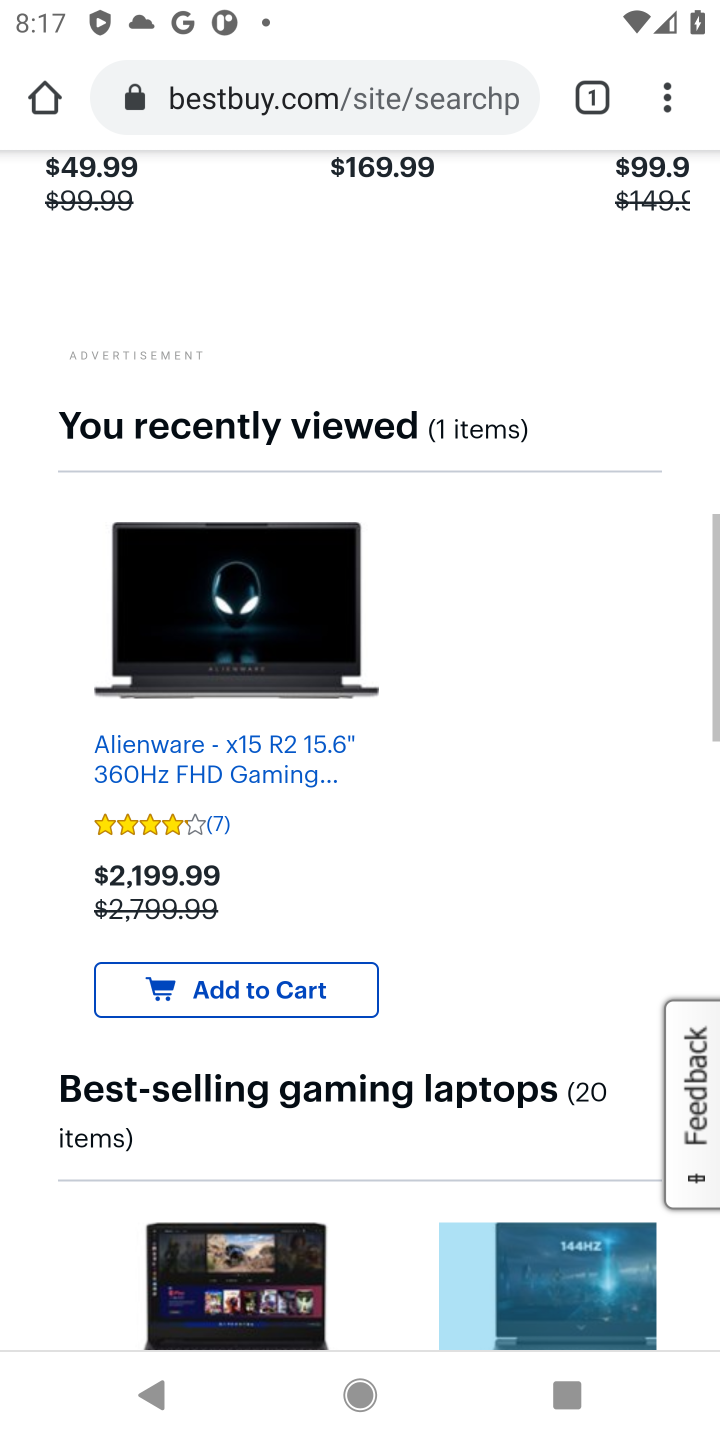
Step 28: drag from (488, 550) to (649, 1188)
Your task to perform on an android device: Clear the cart on bestbuy.com. Search for duracell triple a on bestbuy.com, select the first entry, add it to the cart, then select checkout. Image 29: 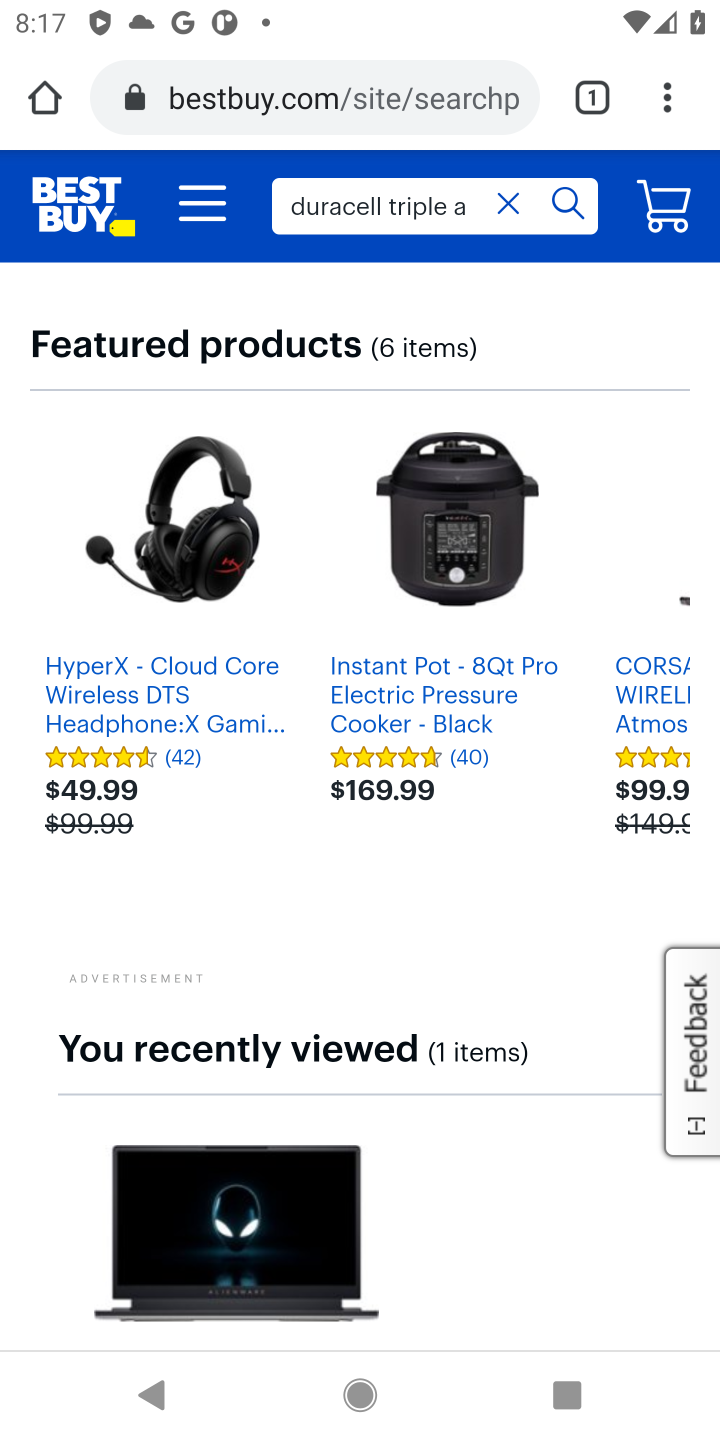
Step 29: click (514, 202)
Your task to perform on an android device: Clear the cart on bestbuy.com. Search for duracell triple a on bestbuy.com, select the first entry, add it to the cart, then select checkout. Image 30: 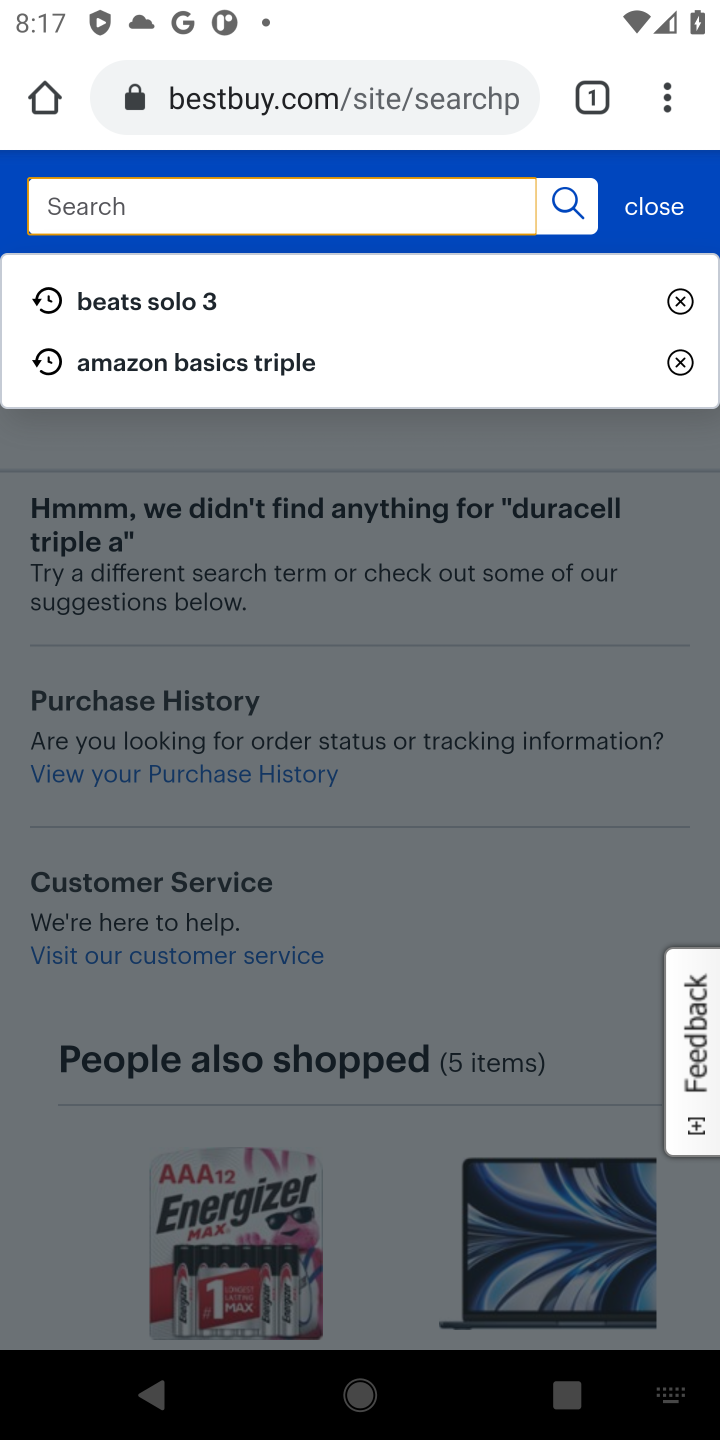
Step 30: type "duracell triple a"
Your task to perform on an android device: Clear the cart on bestbuy.com. Search for duracell triple a on bestbuy.com, select the first entry, add it to the cart, then select checkout. Image 31: 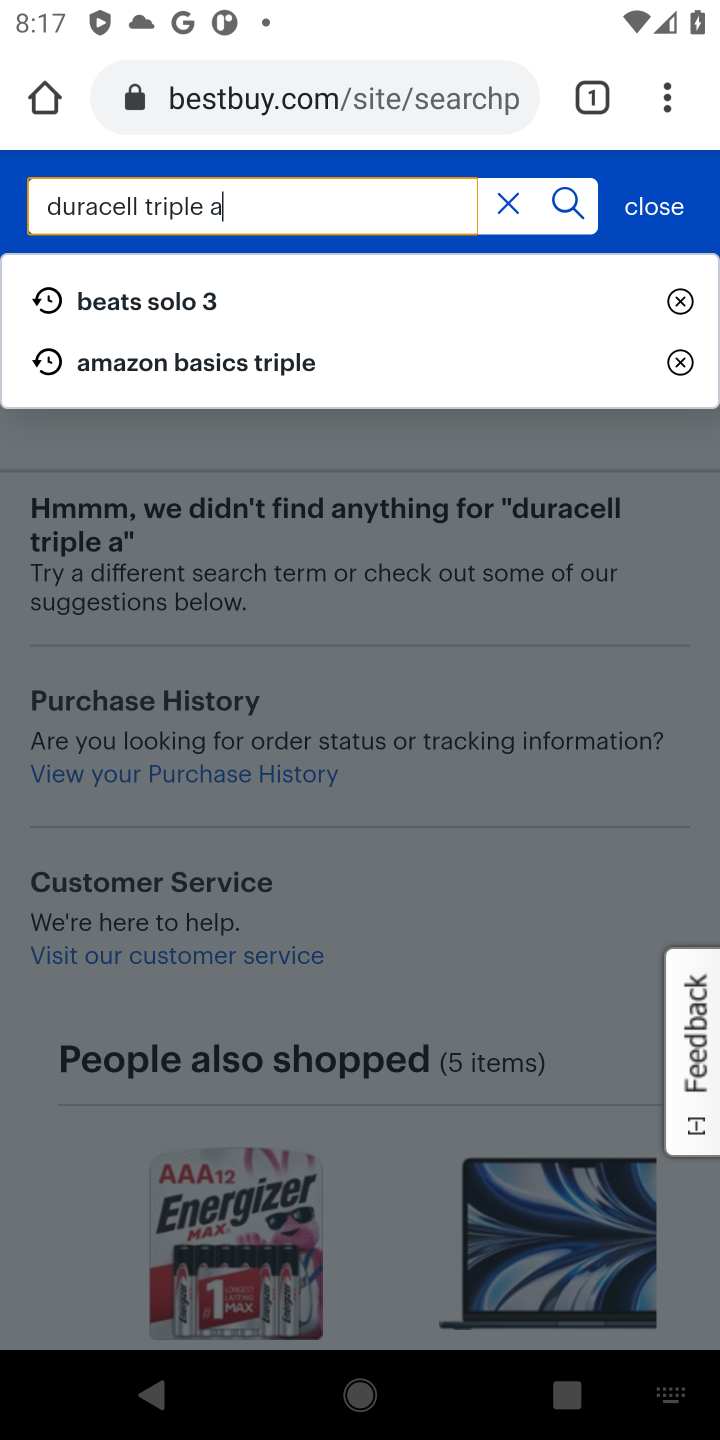
Step 31: press enter
Your task to perform on an android device: Clear the cart on bestbuy.com. Search for duracell triple a on bestbuy.com, select the first entry, add it to the cart, then select checkout. Image 32: 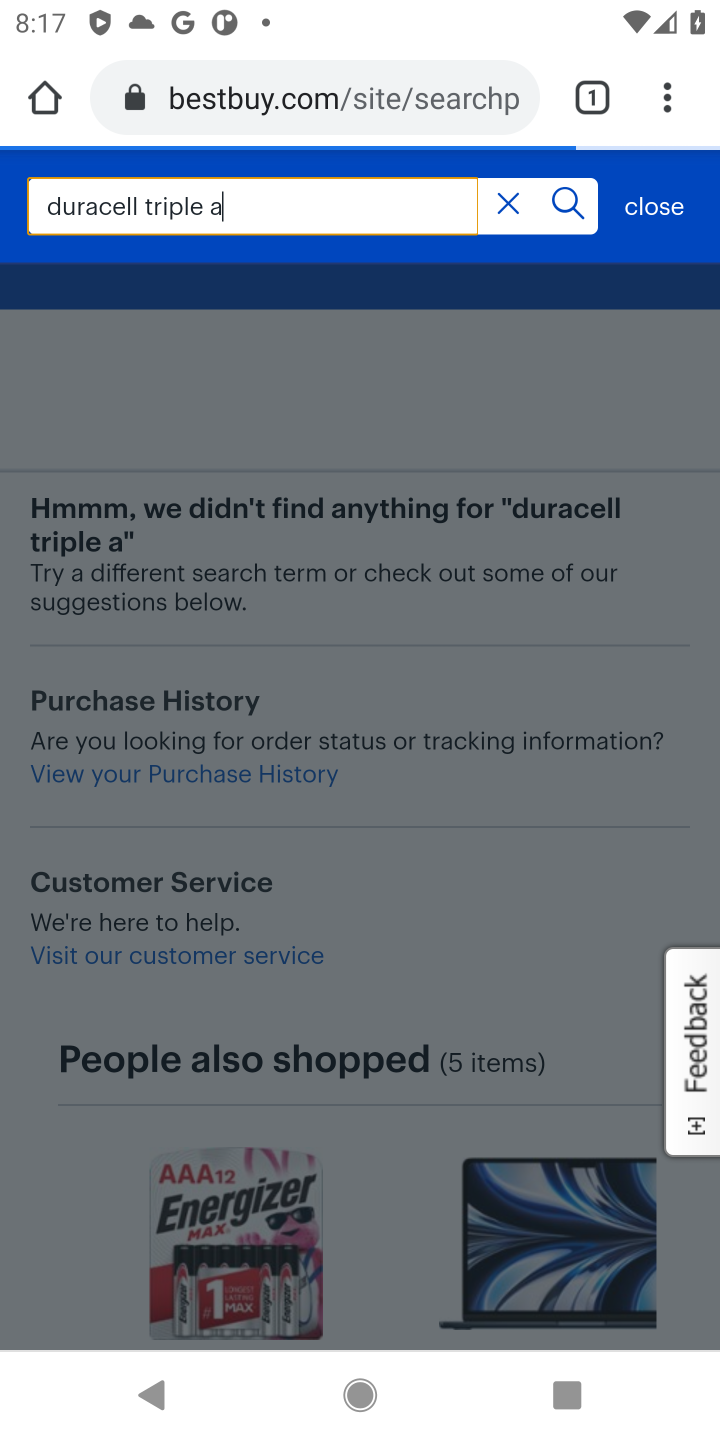
Step 32: click (569, 201)
Your task to perform on an android device: Clear the cart on bestbuy.com. Search for duracell triple a on bestbuy.com, select the first entry, add it to the cart, then select checkout. Image 33: 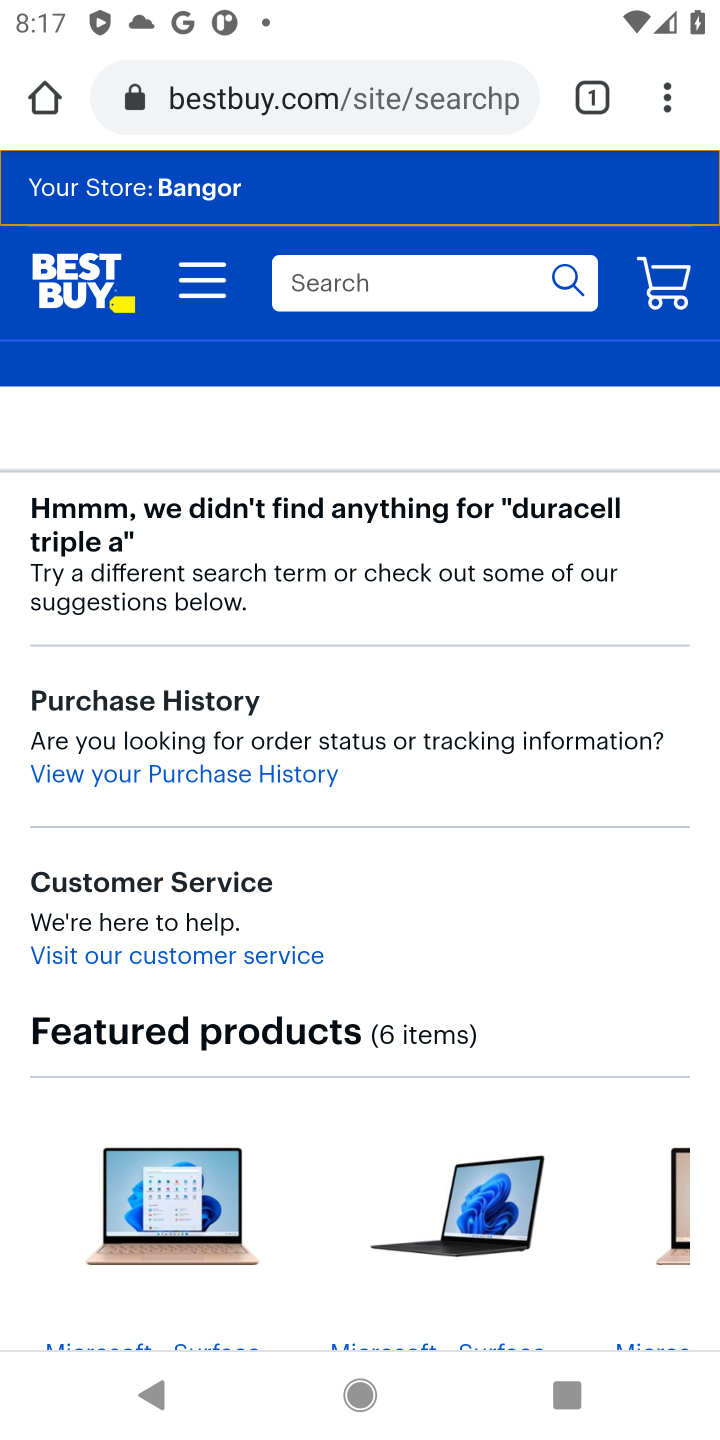
Step 33: task complete